Your task to perform on an android device: Add logitech g933 to the cart on bestbuy.com, then select checkout. Image 0: 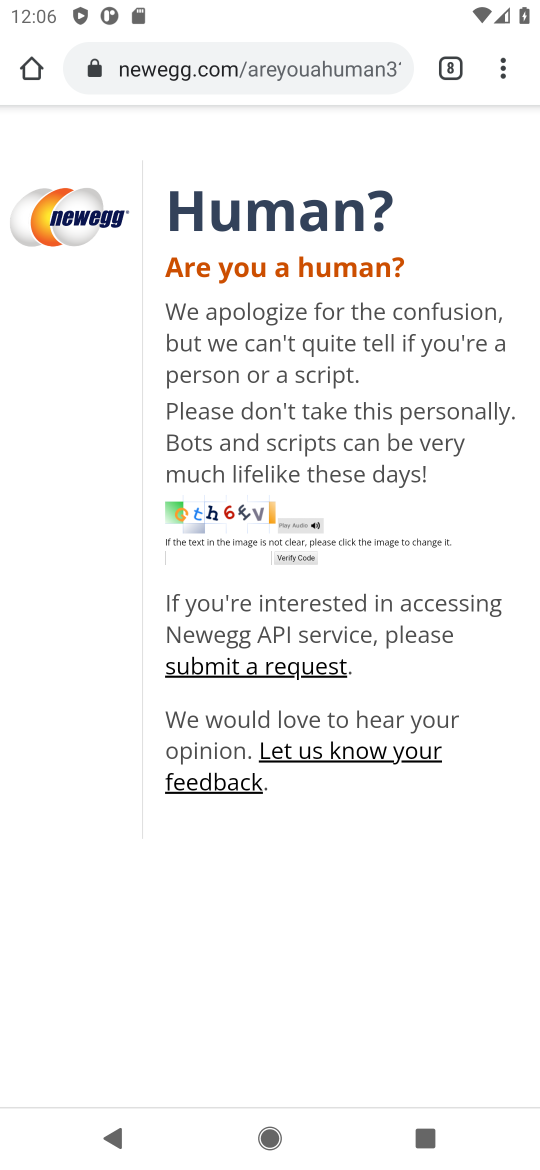
Step 0: press home button
Your task to perform on an android device: Add logitech g933 to the cart on bestbuy.com, then select checkout. Image 1: 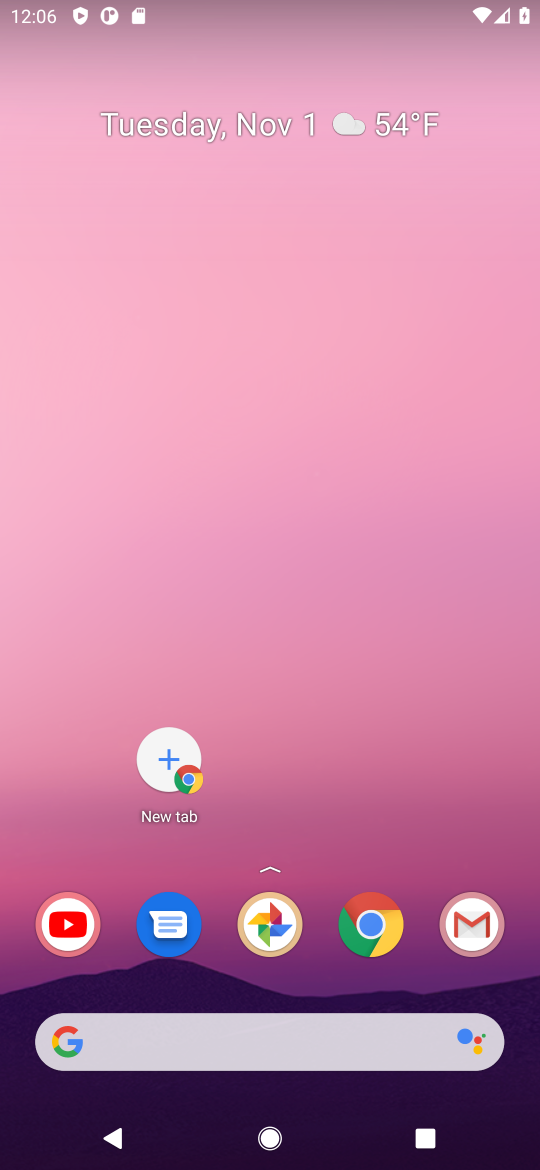
Step 1: click (361, 943)
Your task to perform on an android device: Add logitech g933 to the cart on bestbuy.com, then select checkout. Image 2: 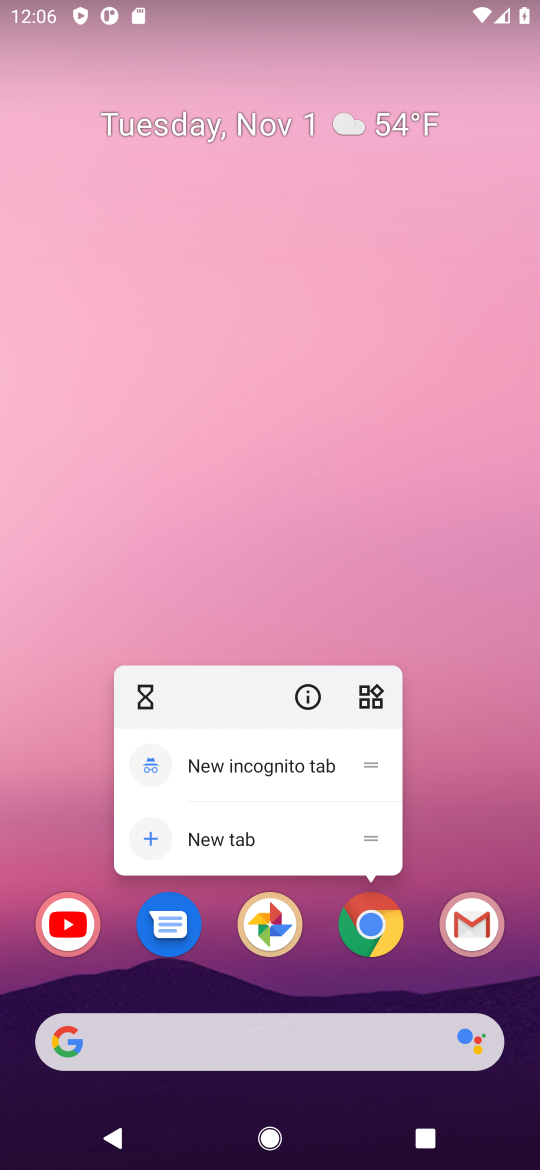
Step 2: click (385, 934)
Your task to perform on an android device: Add logitech g933 to the cart on bestbuy.com, then select checkout. Image 3: 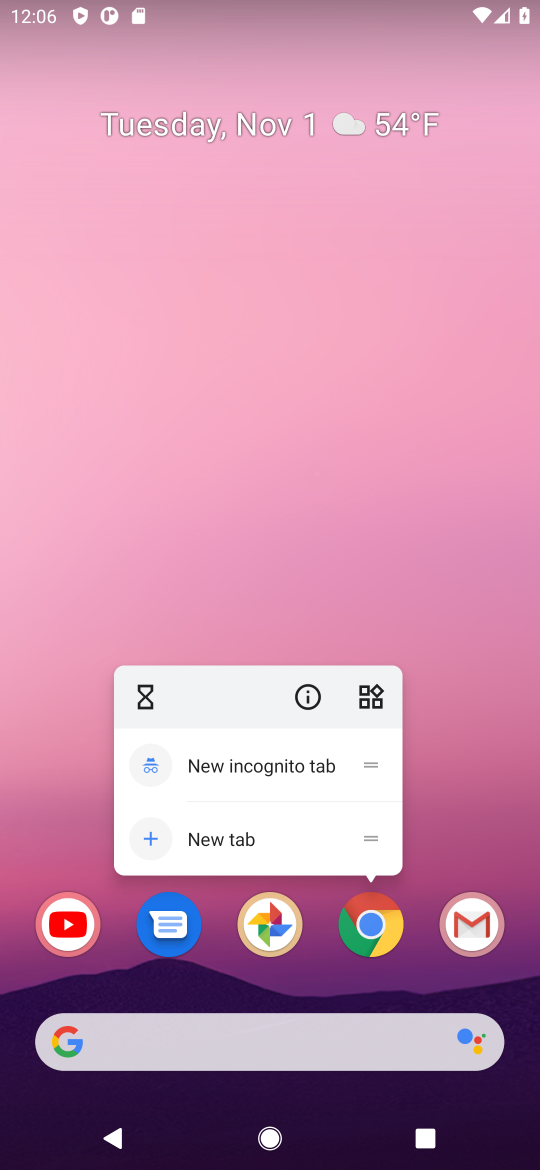
Step 3: click (387, 931)
Your task to perform on an android device: Add logitech g933 to the cart on bestbuy.com, then select checkout. Image 4: 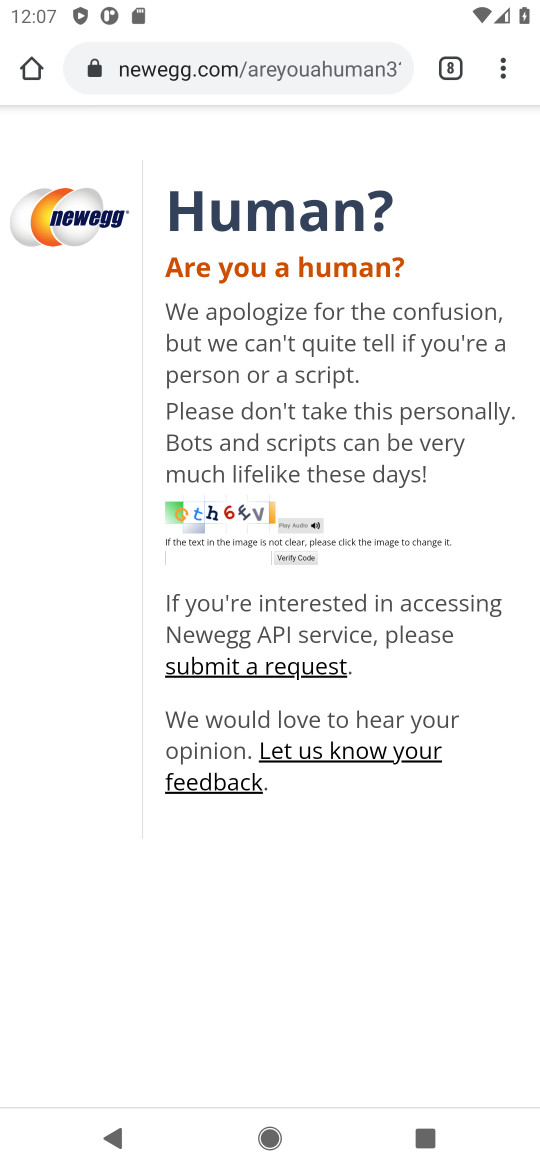
Step 4: press home button
Your task to perform on an android device: Add logitech g933 to the cart on bestbuy.com, then select checkout. Image 5: 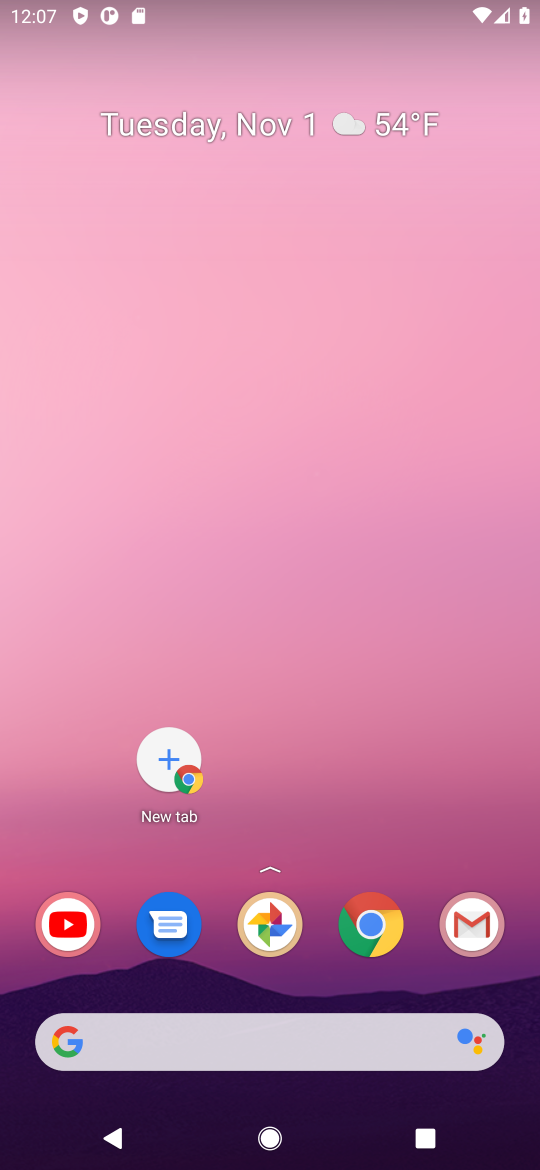
Step 5: click (353, 932)
Your task to perform on an android device: Add logitech g933 to the cart on bestbuy.com, then select checkout. Image 6: 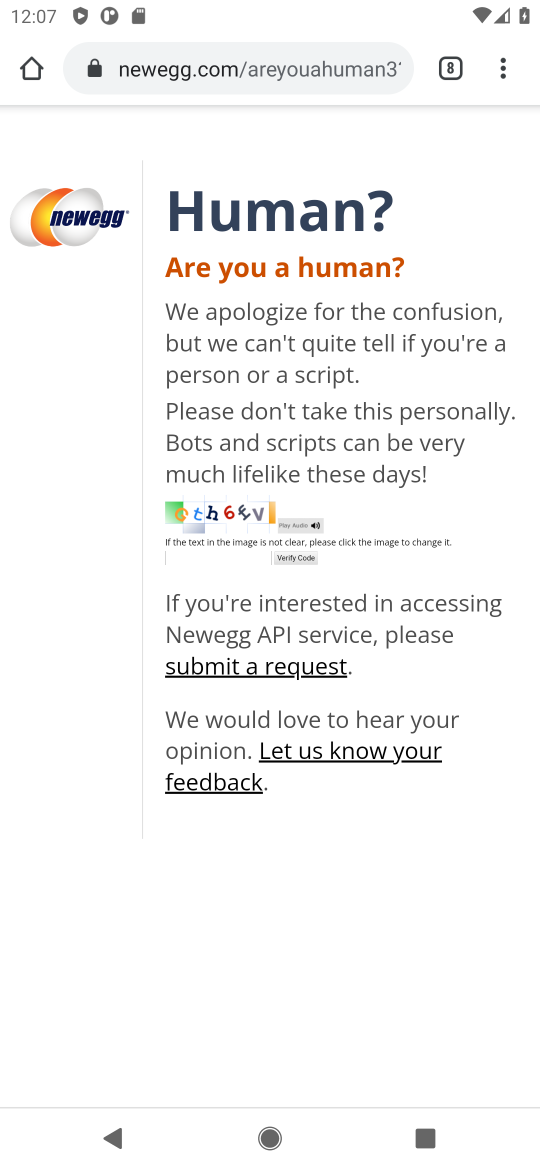
Step 6: click (167, 65)
Your task to perform on an android device: Add logitech g933 to the cart on bestbuy.com, then select checkout. Image 7: 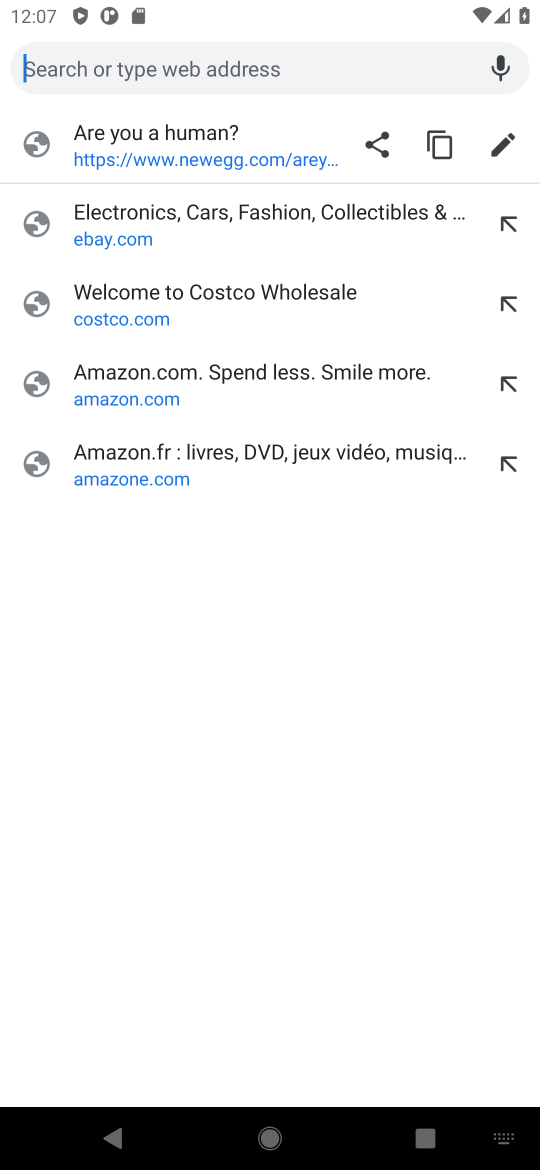
Step 7: type "bestbuy.com"
Your task to perform on an android device: Add logitech g933 to the cart on bestbuy.com, then select checkout. Image 8: 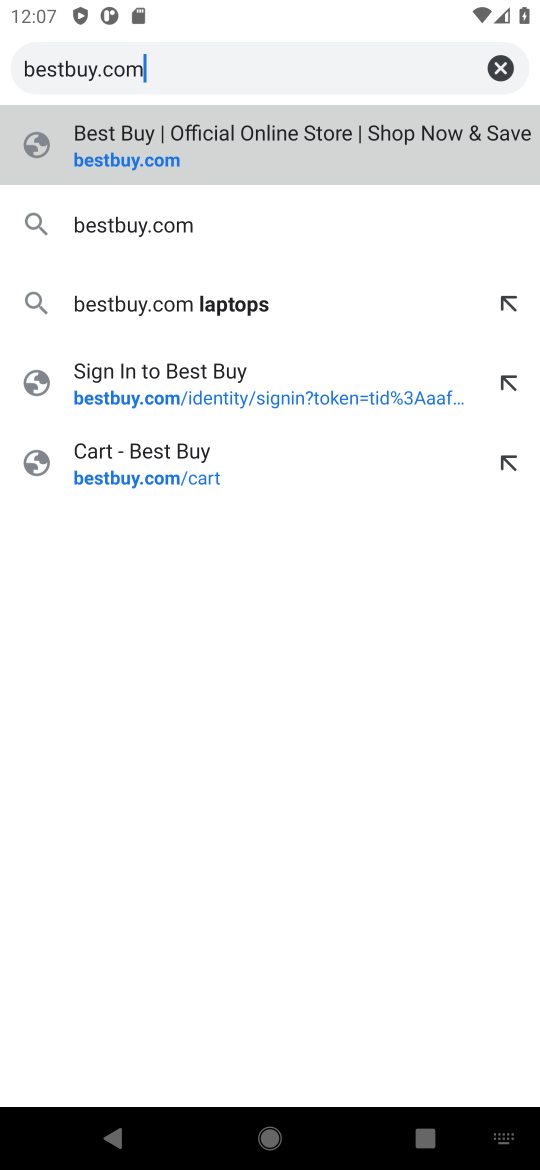
Step 8: click (169, 155)
Your task to perform on an android device: Add logitech g933 to the cart on bestbuy.com, then select checkout. Image 9: 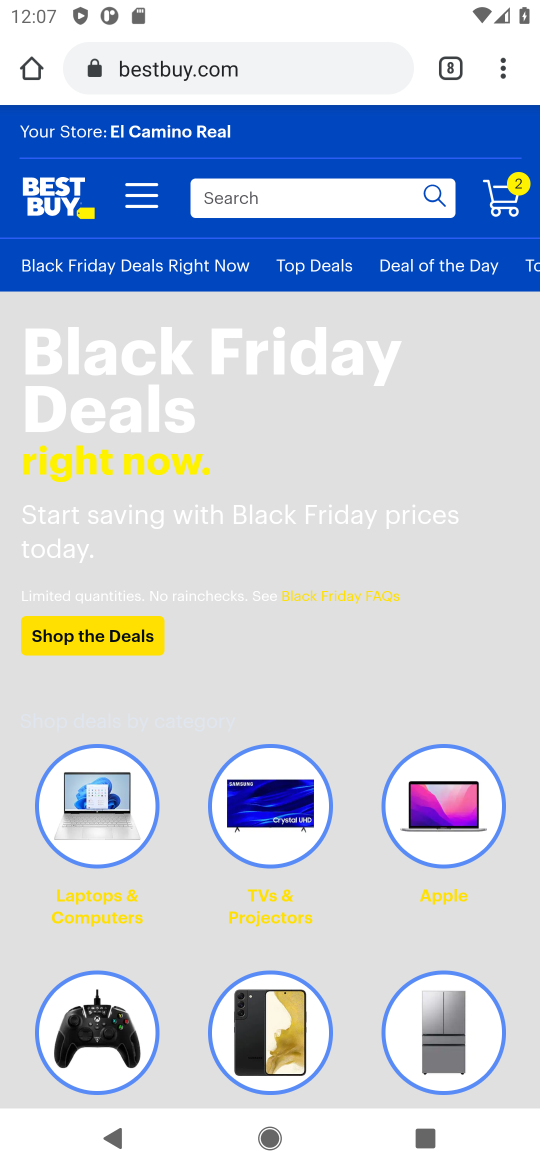
Step 9: click (311, 189)
Your task to perform on an android device: Add logitech g933 to the cart on bestbuy.com, then select checkout. Image 10: 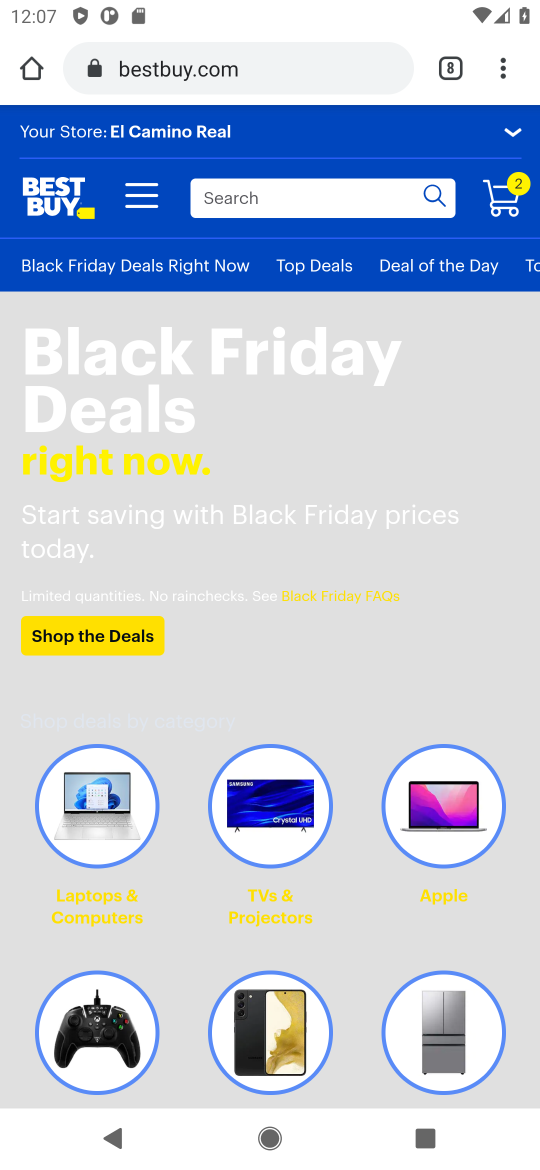
Step 10: type "logitech g 933"
Your task to perform on an android device: Add logitech g933 to the cart on bestbuy.com, then select checkout. Image 11: 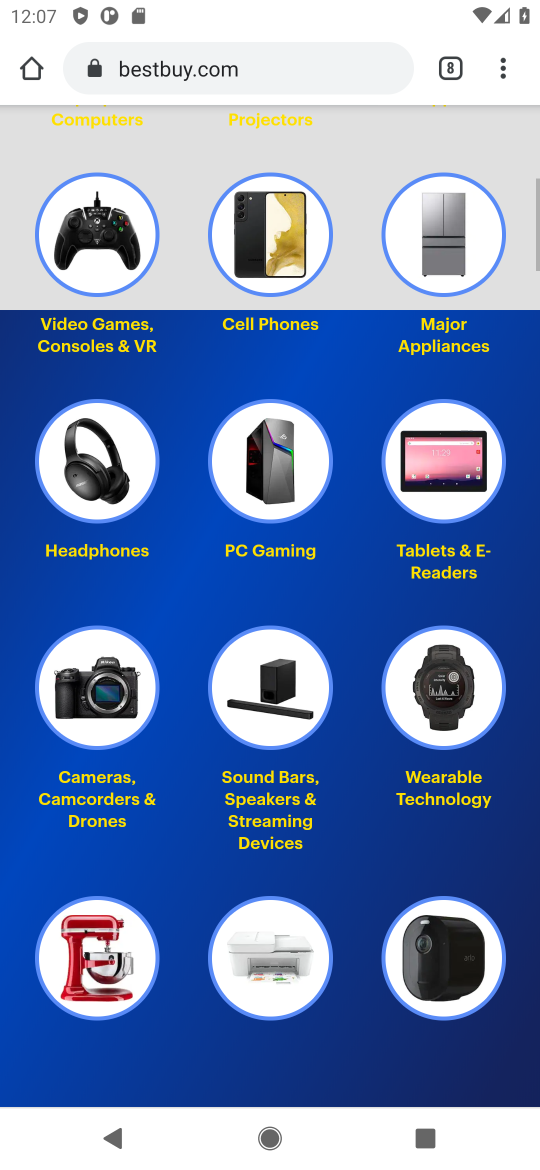
Step 11: type ""
Your task to perform on an android device: Add logitech g933 to the cart on bestbuy.com, then select checkout. Image 12: 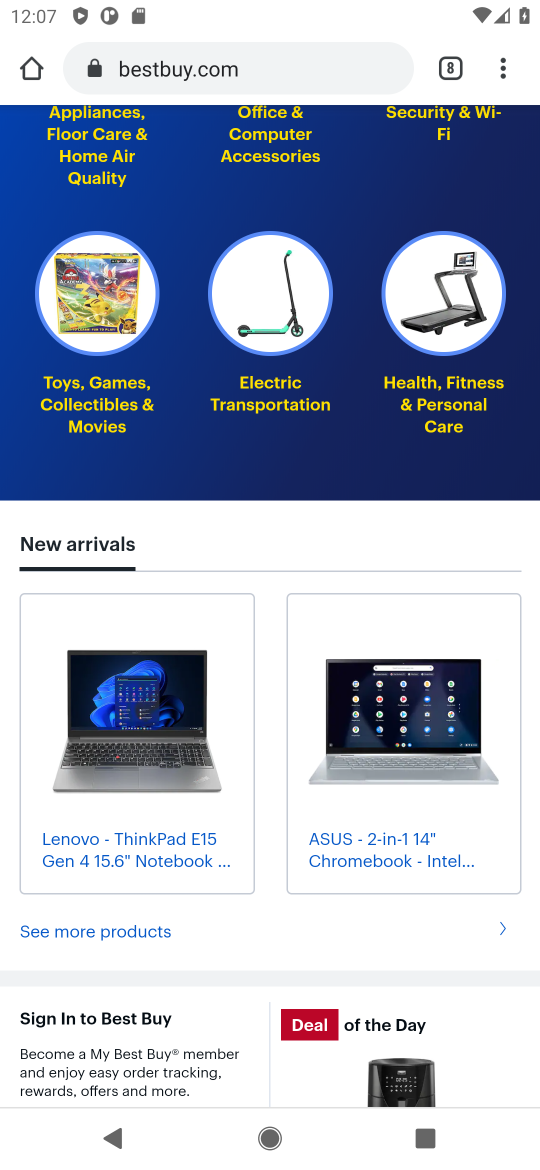
Step 12: drag from (168, 887) to (277, 319)
Your task to perform on an android device: Add logitech g933 to the cart on bestbuy.com, then select checkout. Image 13: 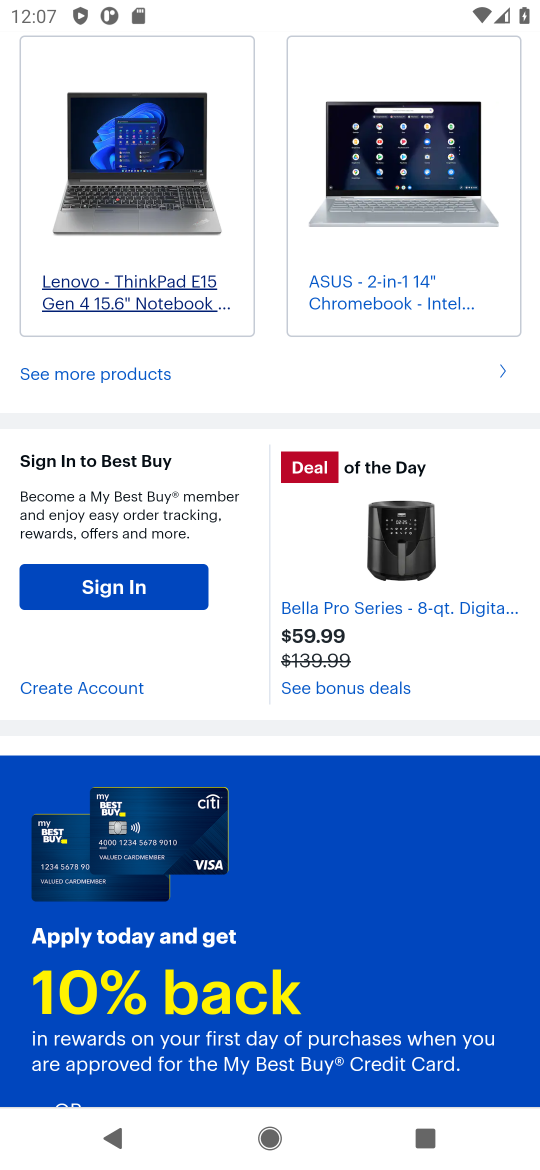
Step 13: drag from (156, 897) to (214, 237)
Your task to perform on an android device: Add logitech g933 to the cart on bestbuy.com, then select checkout. Image 14: 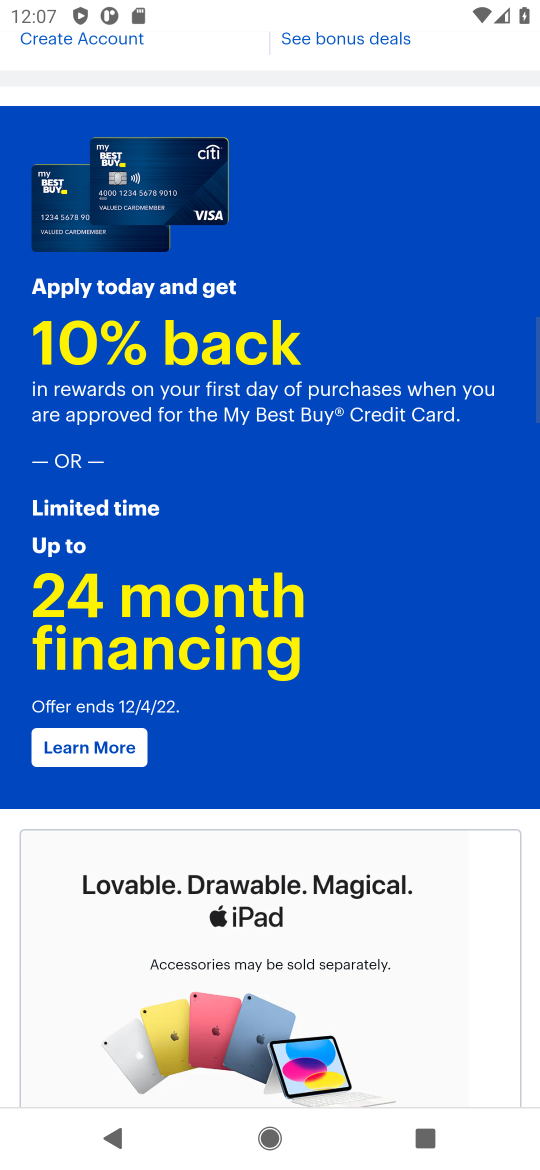
Step 14: drag from (240, 620) to (304, 105)
Your task to perform on an android device: Add logitech g933 to the cart on bestbuy.com, then select checkout. Image 15: 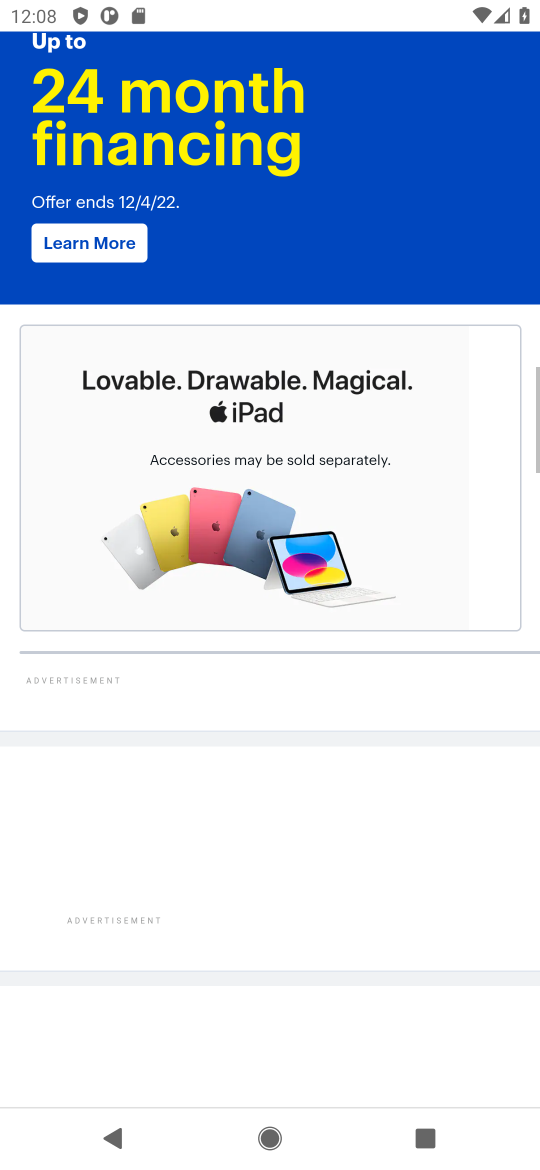
Step 15: drag from (328, 123) to (326, 816)
Your task to perform on an android device: Add logitech g933 to the cart on bestbuy.com, then select checkout. Image 16: 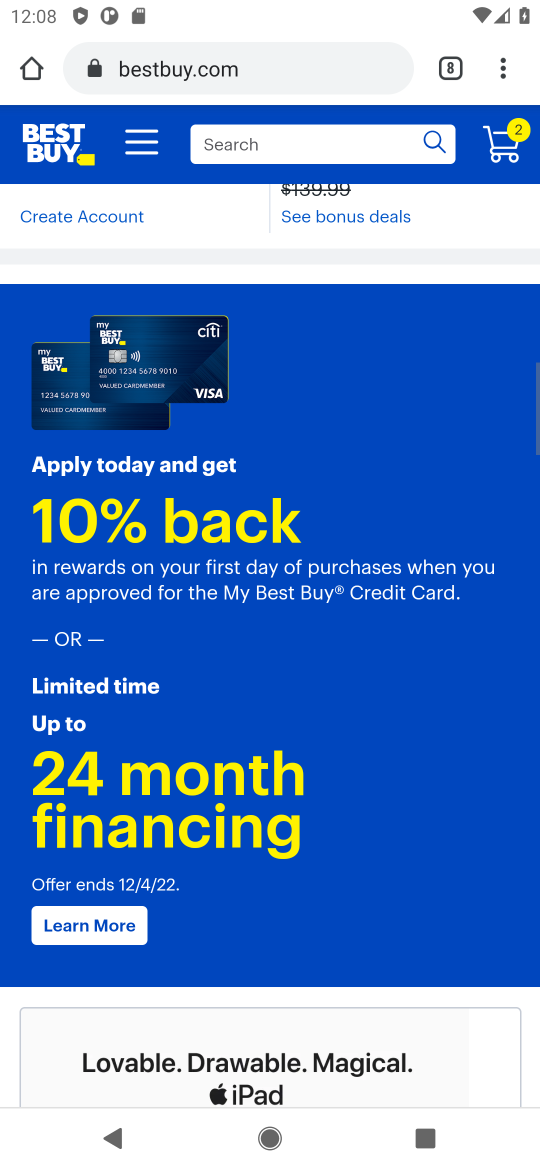
Step 16: drag from (294, 346) to (270, 921)
Your task to perform on an android device: Add logitech g933 to the cart on bestbuy.com, then select checkout. Image 17: 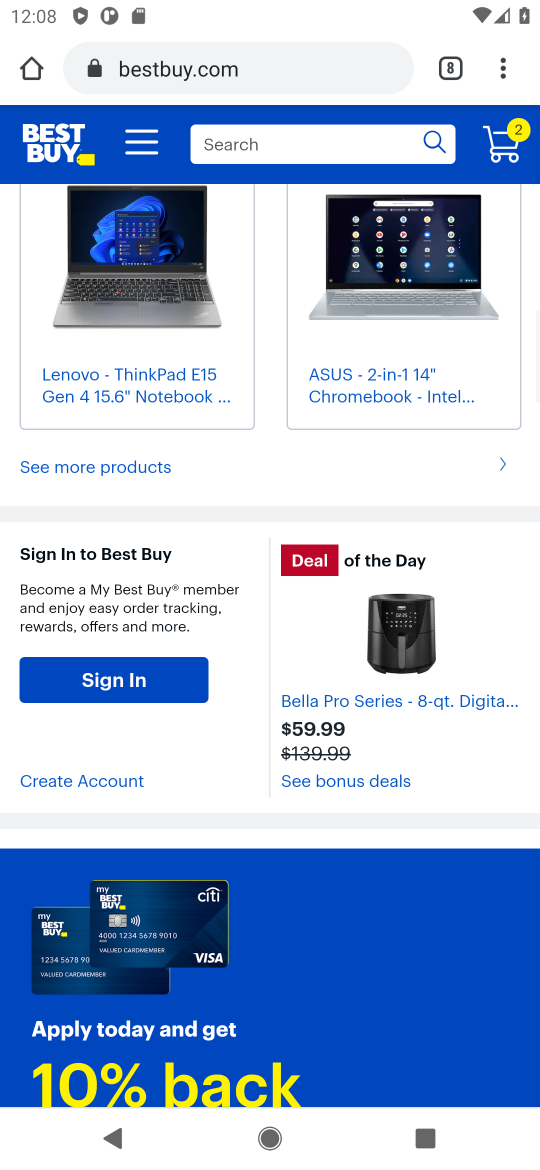
Step 17: drag from (183, 329) to (159, 753)
Your task to perform on an android device: Add logitech g933 to the cart on bestbuy.com, then select checkout. Image 18: 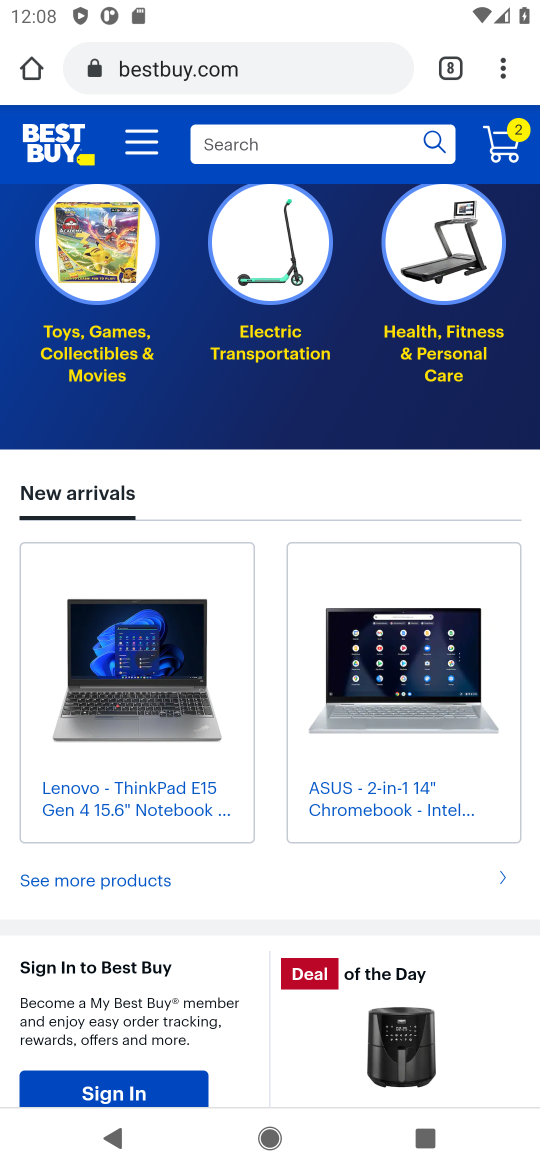
Step 18: click (197, 719)
Your task to perform on an android device: Add logitech g933 to the cart on bestbuy.com, then select checkout. Image 19: 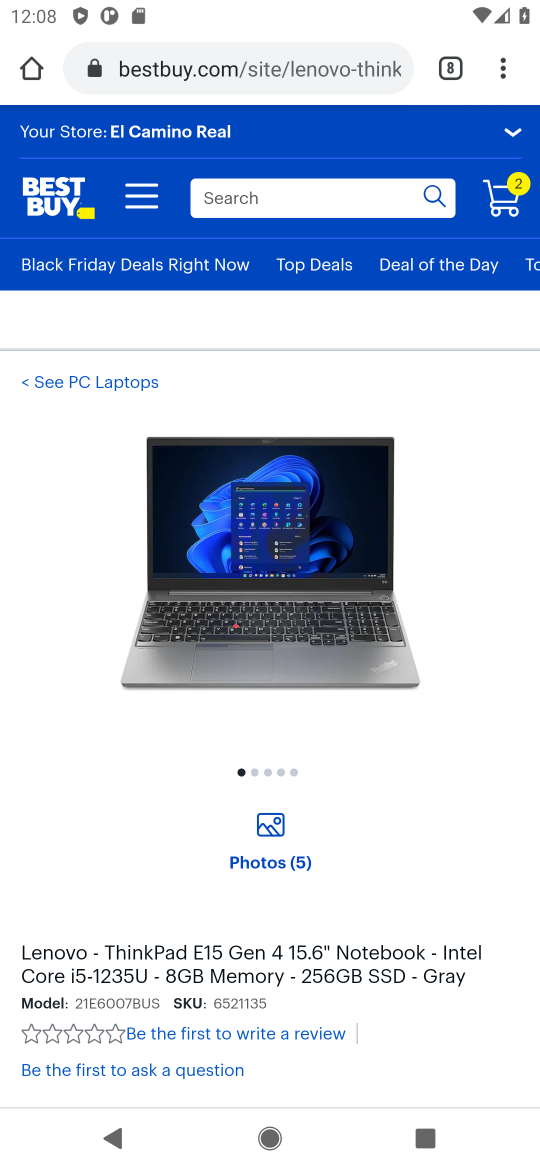
Step 19: drag from (410, 747) to (409, 298)
Your task to perform on an android device: Add logitech g933 to the cart on bestbuy.com, then select checkout. Image 20: 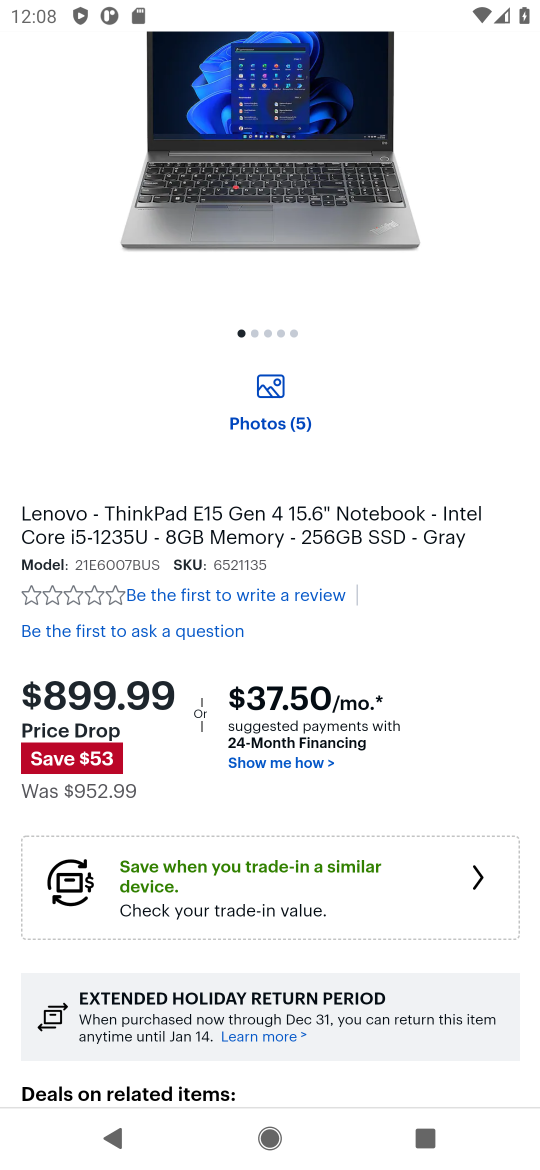
Step 20: drag from (374, 344) to (394, 727)
Your task to perform on an android device: Add logitech g933 to the cart on bestbuy.com, then select checkout. Image 21: 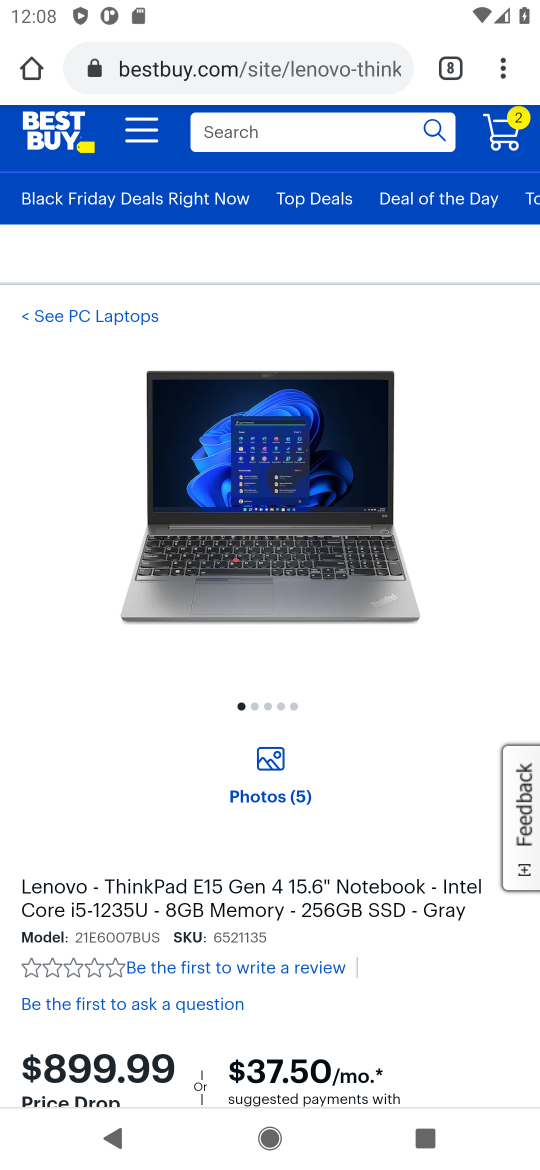
Step 21: drag from (335, 767) to (387, 333)
Your task to perform on an android device: Add logitech g933 to the cart on bestbuy.com, then select checkout. Image 22: 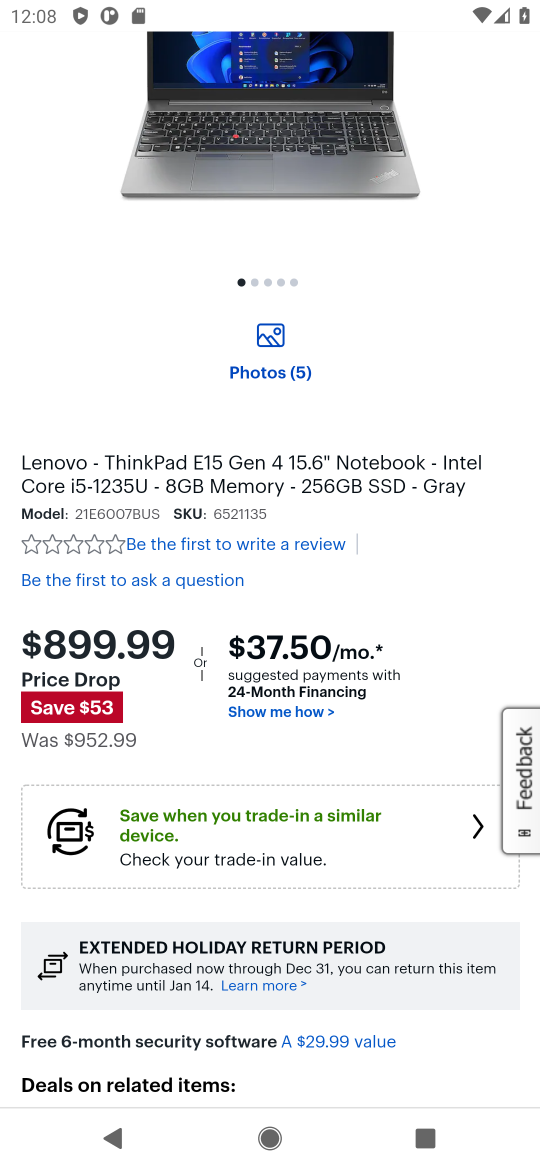
Step 22: drag from (460, 667) to (423, 752)
Your task to perform on an android device: Add logitech g933 to the cart on bestbuy.com, then select checkout. Image 23: 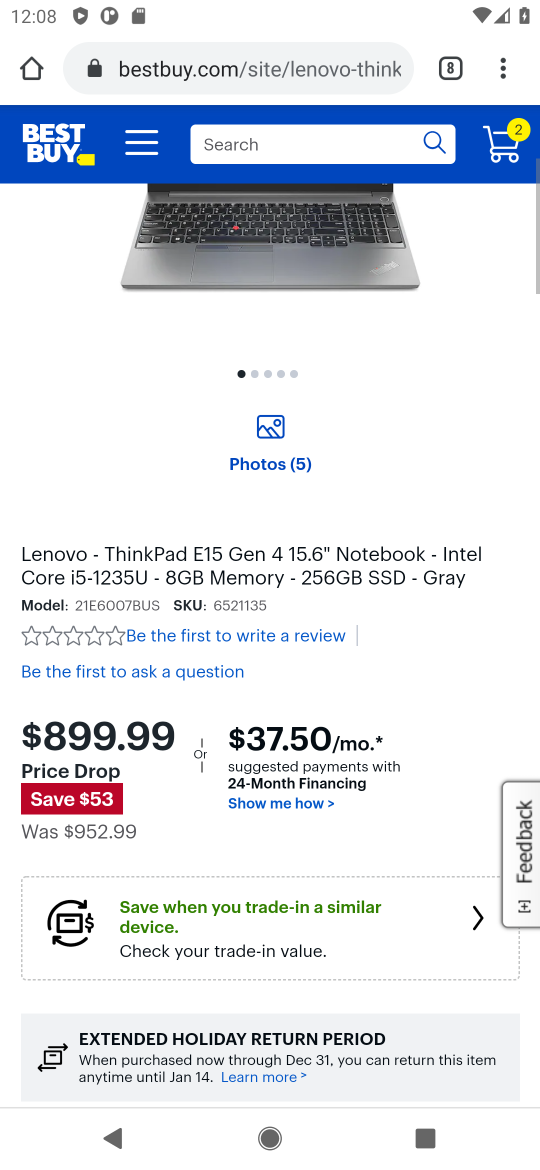
Step 23: drag from (357, 331) to (246, 867)
Your task to perform on an android device: Add logitech g933 to the cart on bestbuy.com, then select checkout. Image 24: 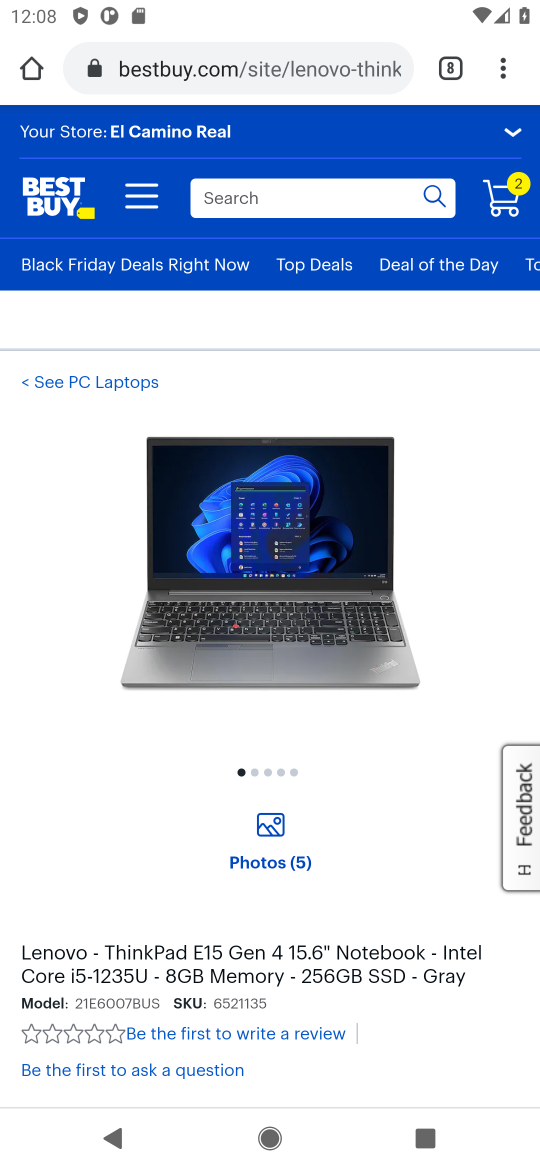
Step 24: click (255, 195)
Your task to perform on an android device: Add logitech g933 to the cart on bestbuy.com, then select checkout. Image 25: 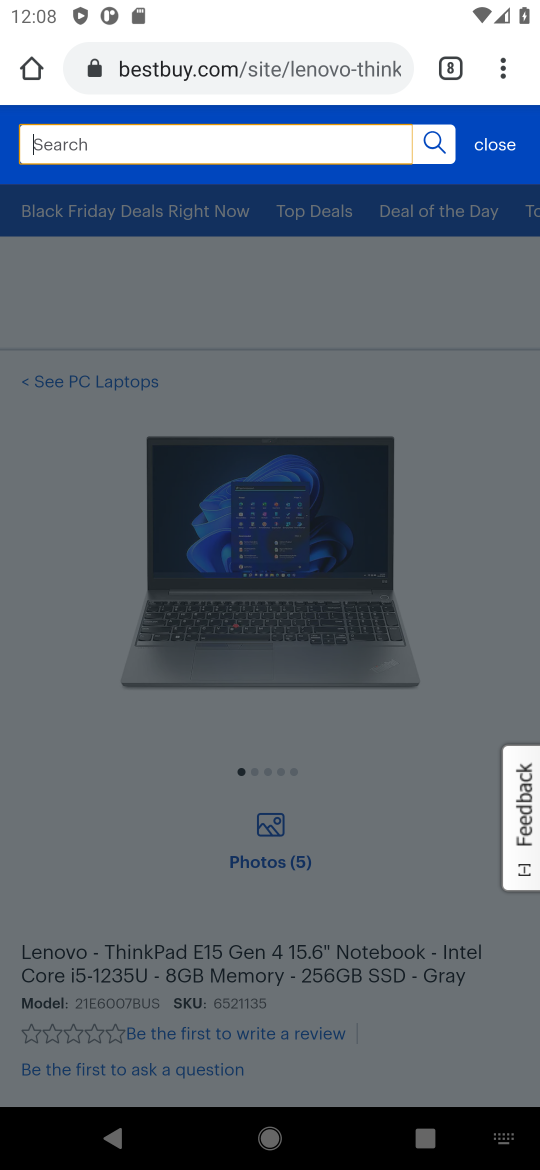
Step 25: type "logitech g933"
Your task to perform on an android device: Add logitech g933 to the cart on bestbuy.com, then select checkout. Image 26: 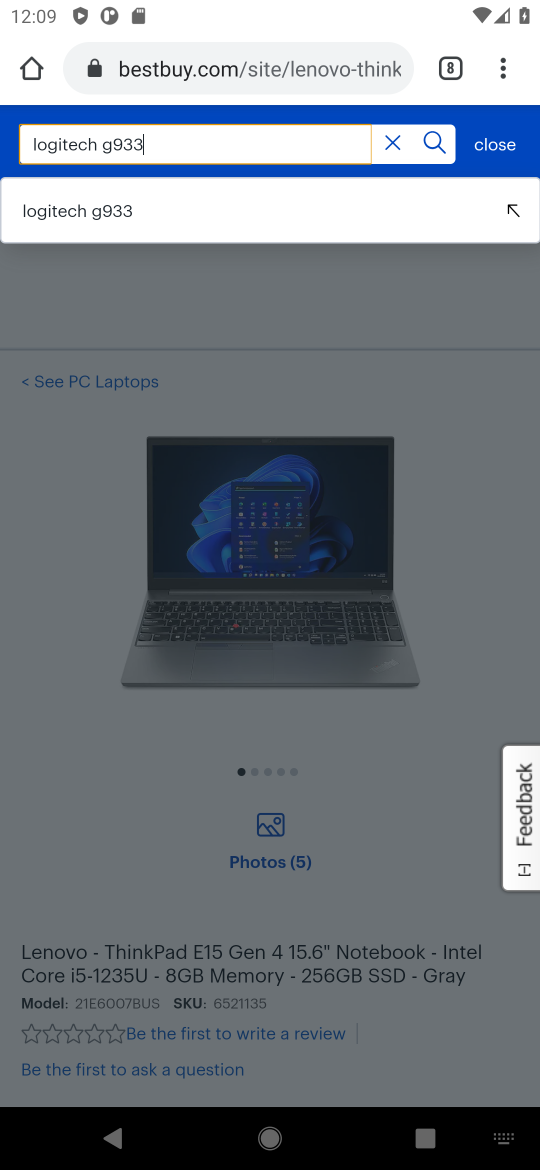
Step 26: click (128, 214)
Your task to perform on an android device: Add logitech g933 to the cart on bestbuy.com, then select checkout. Image 27: 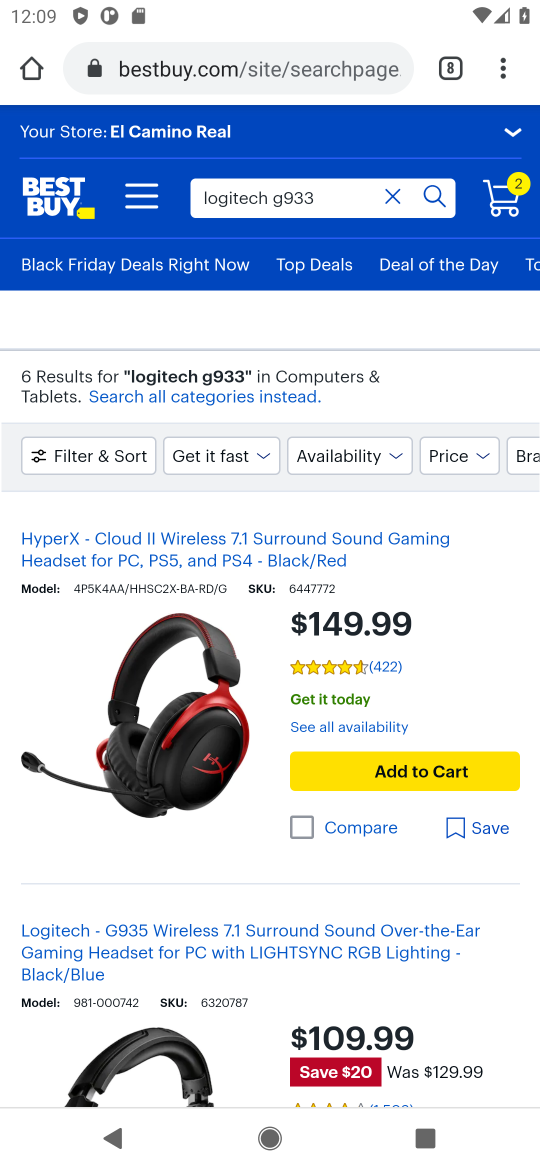
Step 27: drag from (156, 805) to (245, 319)
Your task to perform on an android device: Add logitech g933 to the cart on bestbuy.com, then select checkout. Image 28: 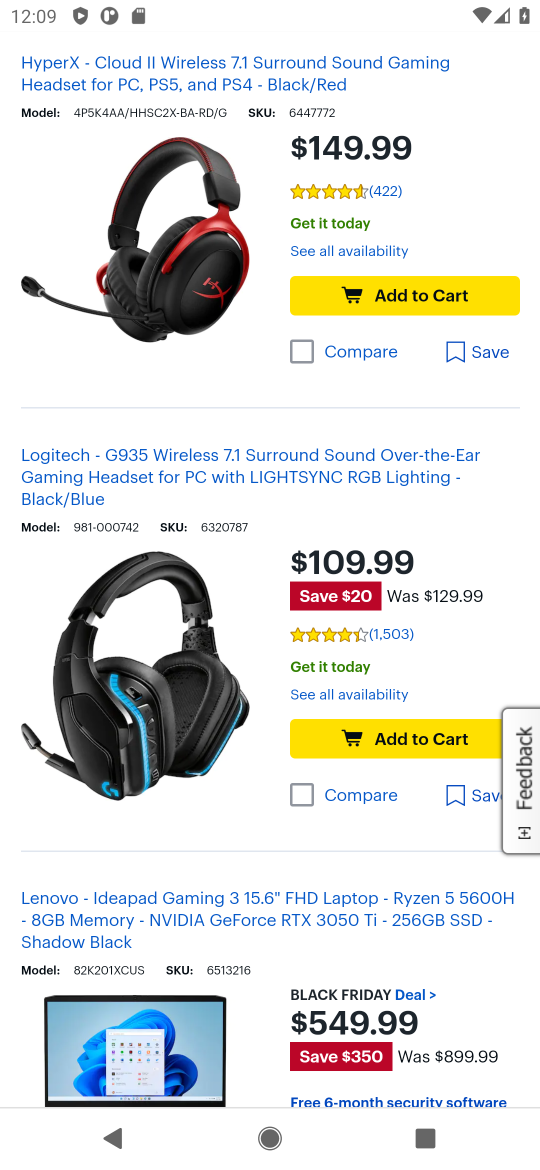
Step 28: click (149, 687)
Your task to perform on an android device: Add logitech g933 to the cart on bestbuy.com, then select checkout. Image 29: 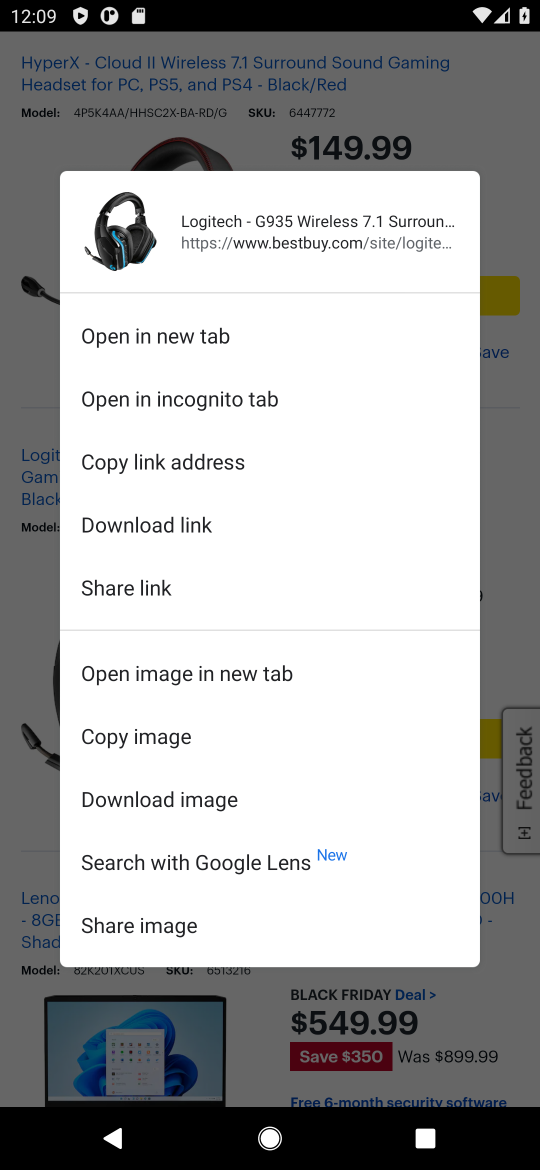
Step 29: press back button
Your task to perform on an android device: Add logitech g933 to the cart on bestbuy.com, then select checkout. Image 30: 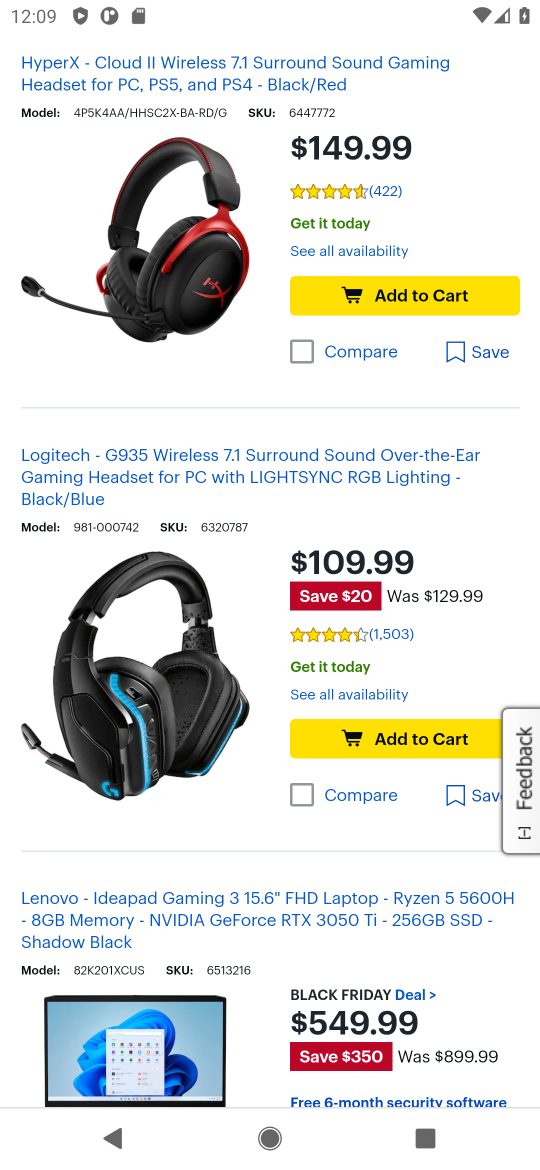
Step 30: drag from (422, 362) to (376, 716)
Your task to perform on an android device: Add logitech g933 to the cart on bestbuy.com, then select checkout. Image 31: 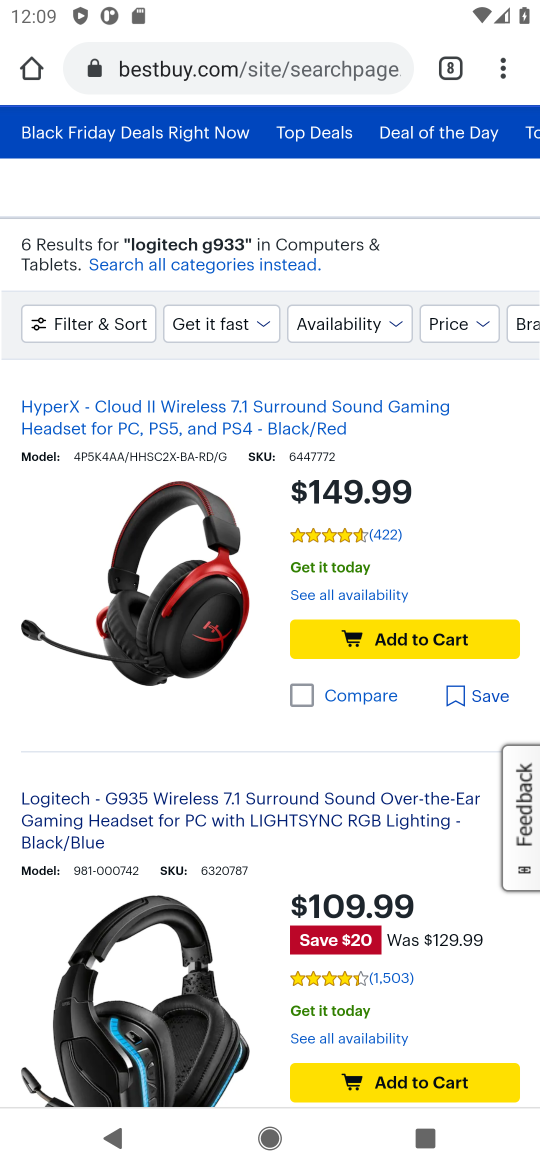
Step 31: drag from (97, 778) to (158, 393)
Your task to perform on an android device: Add logitech g933 to the cart on bestbuy.com, then select checkout. Image 32: 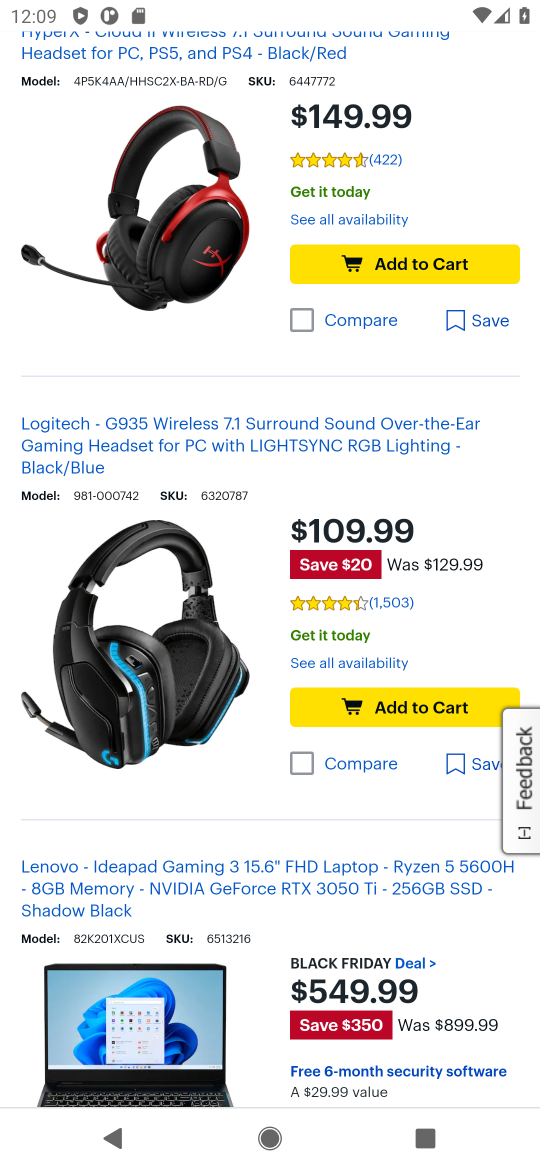
Step 32: click (142, 460)
Your task to perform on an android device: Add logitech g933 to the cart on bestbuy.com, then select checkout. Image 33: 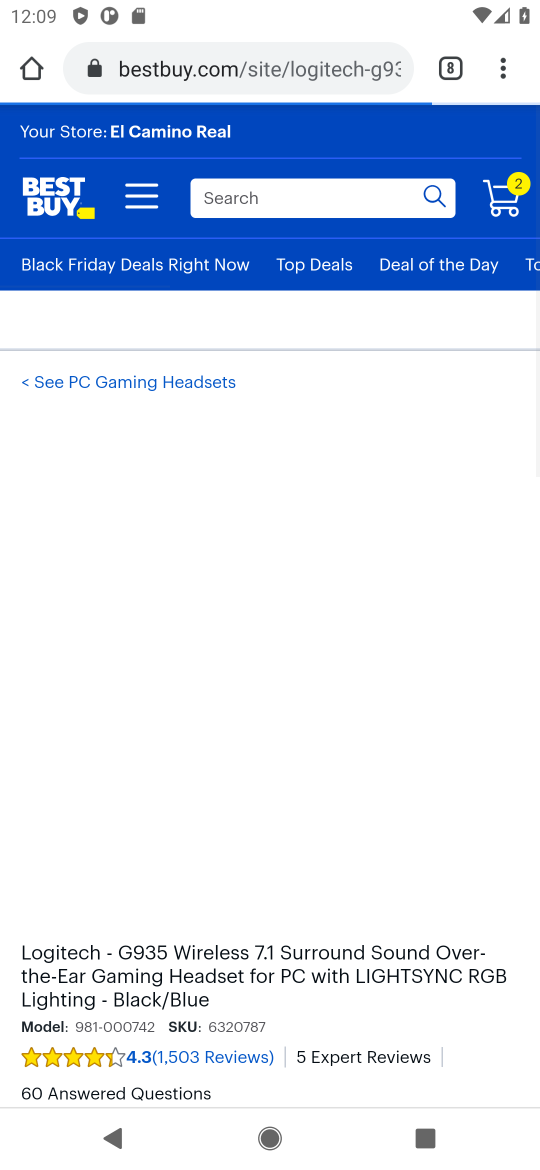
Step 33: click (116, 672)
Your task to perform on an android device: Add logitech g933 to the cart on bestbuy.com, then select checkout. Image 34: 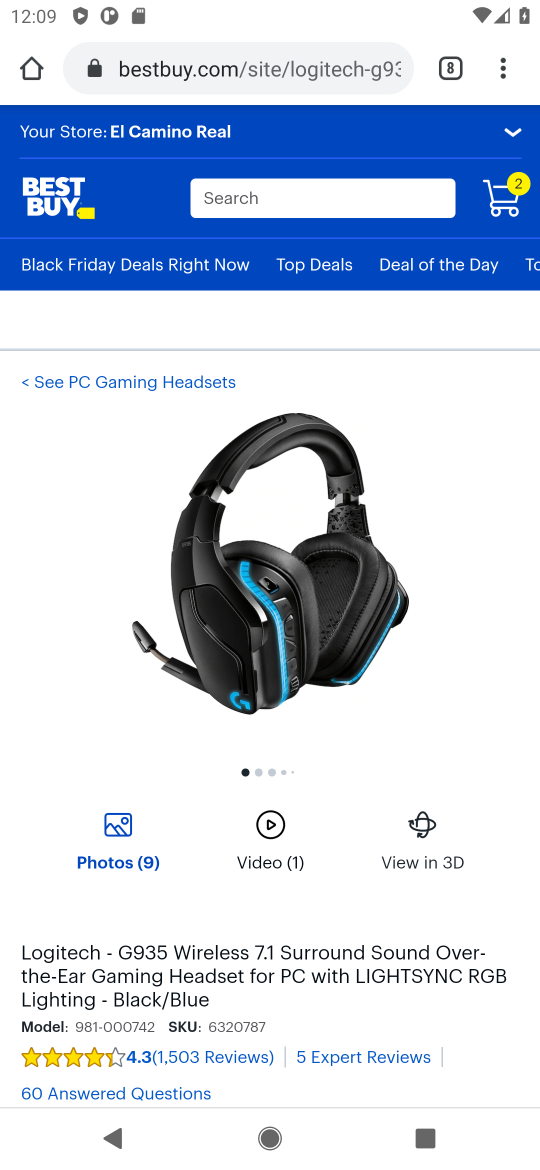
Step 34: drag from (498, 773) to (473, 417)
Your task to perform on an android device: Add logitech g933 to the cart on bestbuy.com, then select checkout. Image 35: 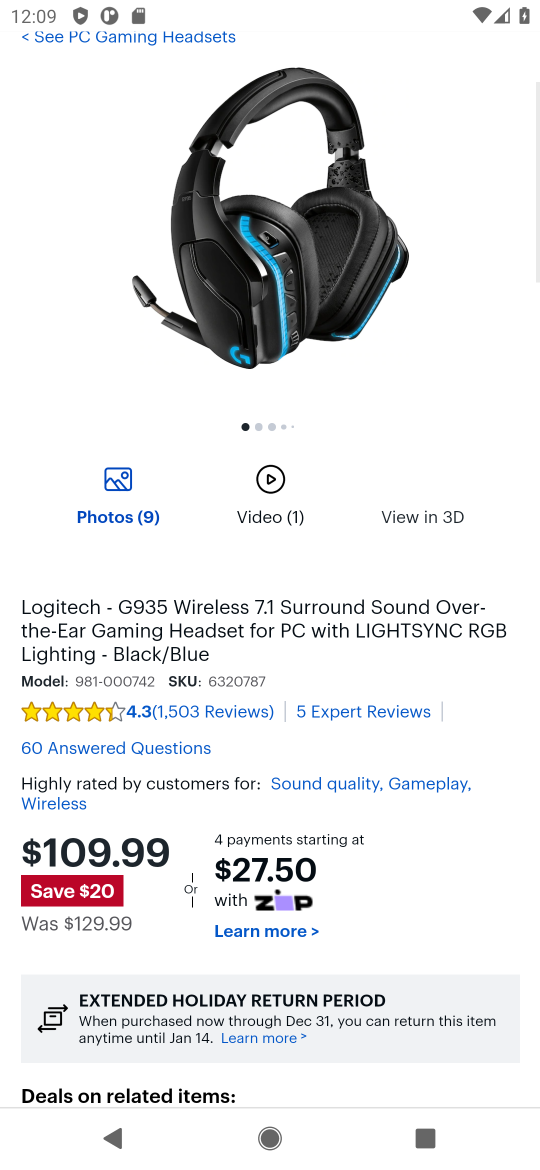
Step 35: drag from (373, 873) to (422, 575)
Your task to perform on an android device: Add logitech g933 to the cart on bestbuy.com, then select checkout. Image 36: 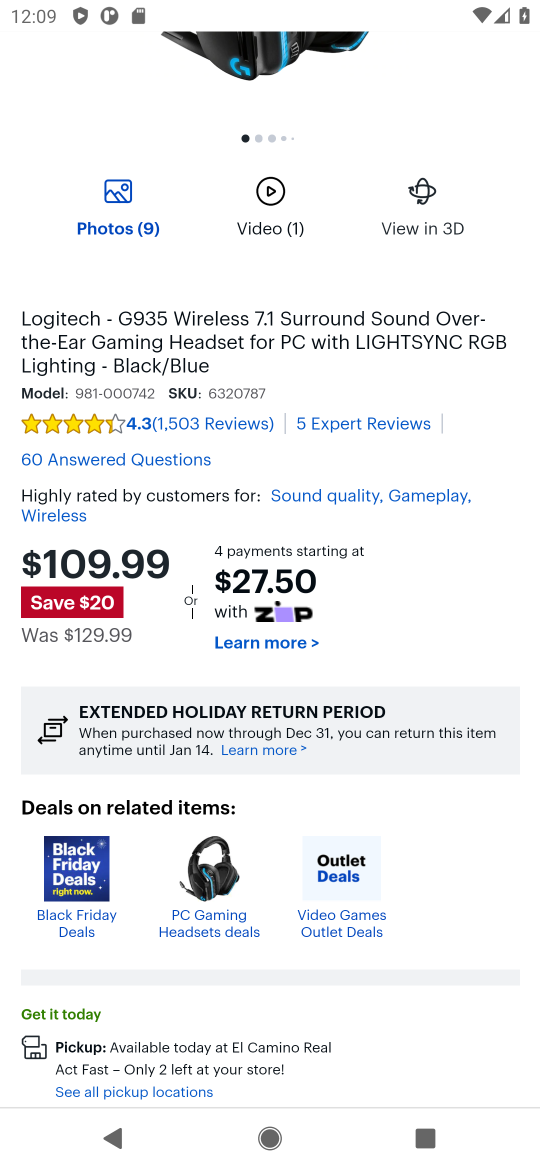
Step 36: drag from (393, 768) to (398, 384)
Your task to perform on an android device: Add logitech g933 to the cart on bestbuy.com, then select checkout. Image 37: 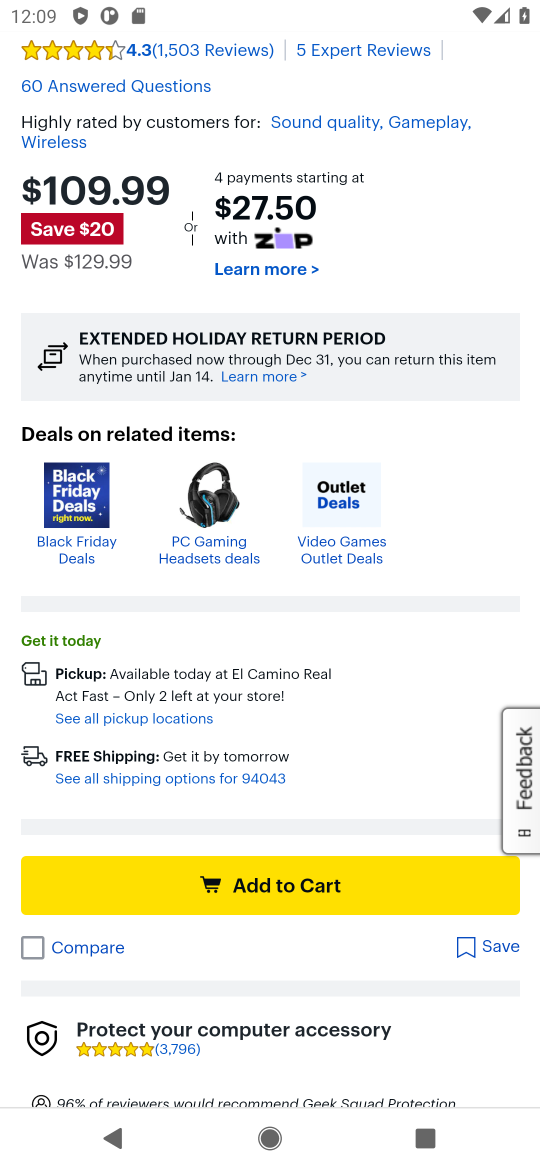
Step 37: click (272, 873)
Your task to perform on an android device: Add logitech g933 to the cart on bestbuy.com, then select checkout. Image 38: 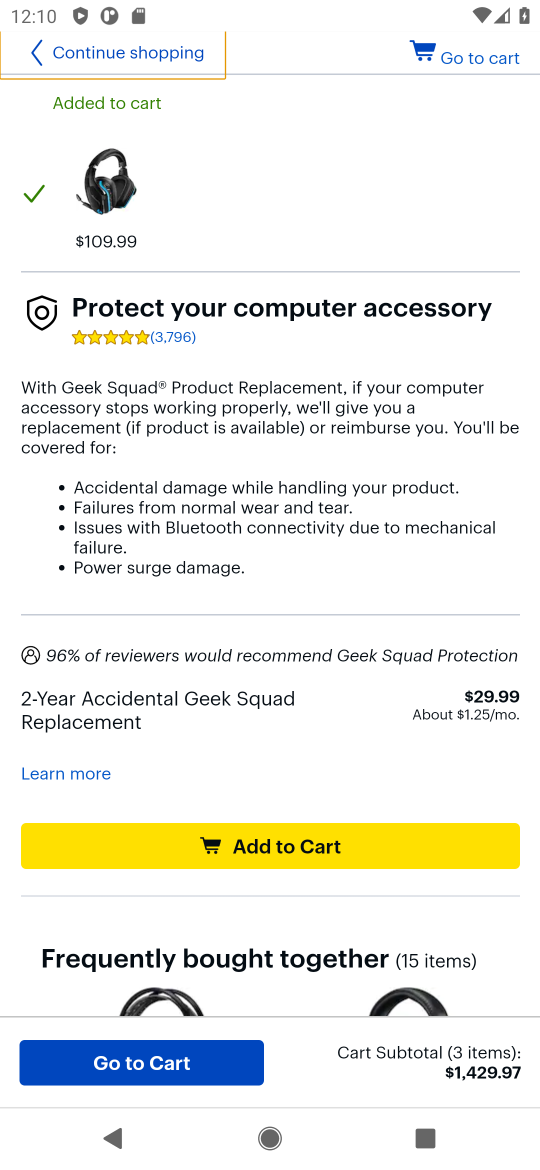
Step 38: drag from (243, 907) to (359, 450)
Your task to perform on an android device: Add logitech g933 to the cart on bestbuy.com, then select checkout. Image 39: 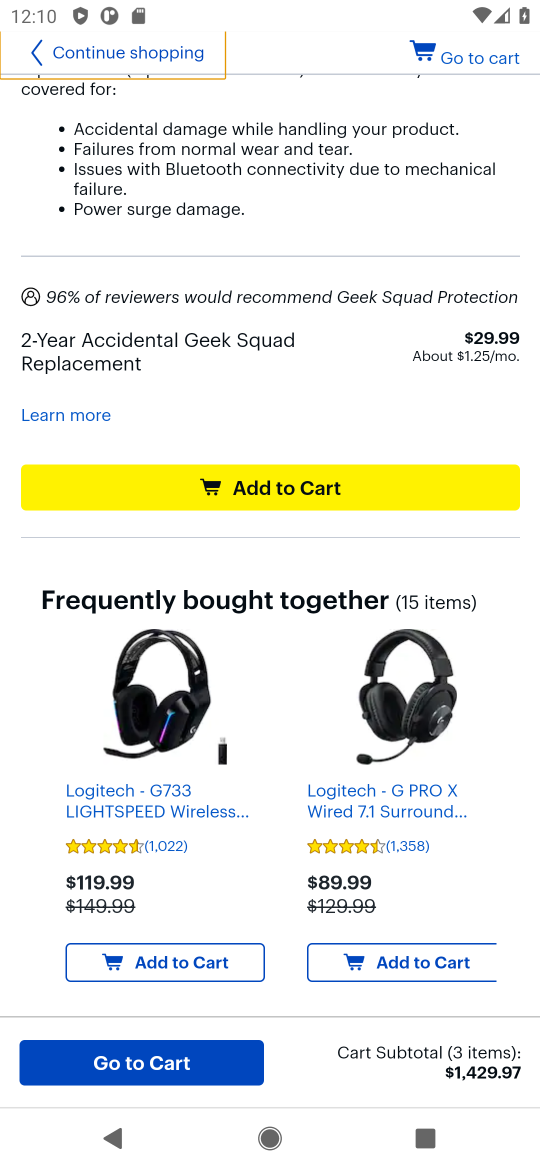
Step 39: click (302, 478)
Your task to perform on an android device: Add logitech g933 to the cart on bestbuy.com, then select checkout. Image 40: 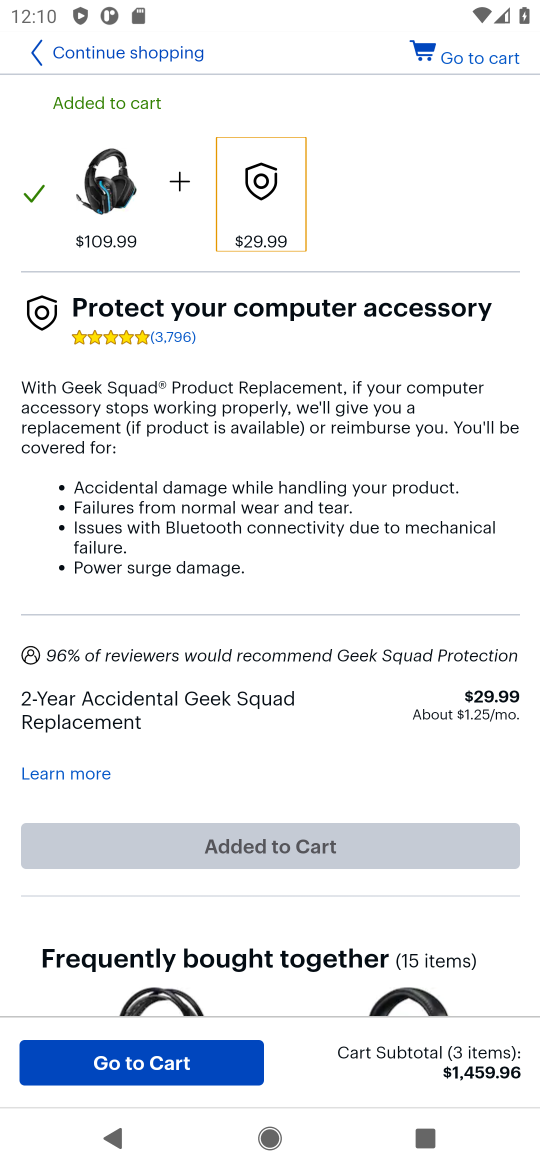
Step 40: drag from (352, 484) to (336, 803)
Your task to perform on an android device: Add logitech g933 to the cart on bestbuy.com, then select checkout. Image 41: 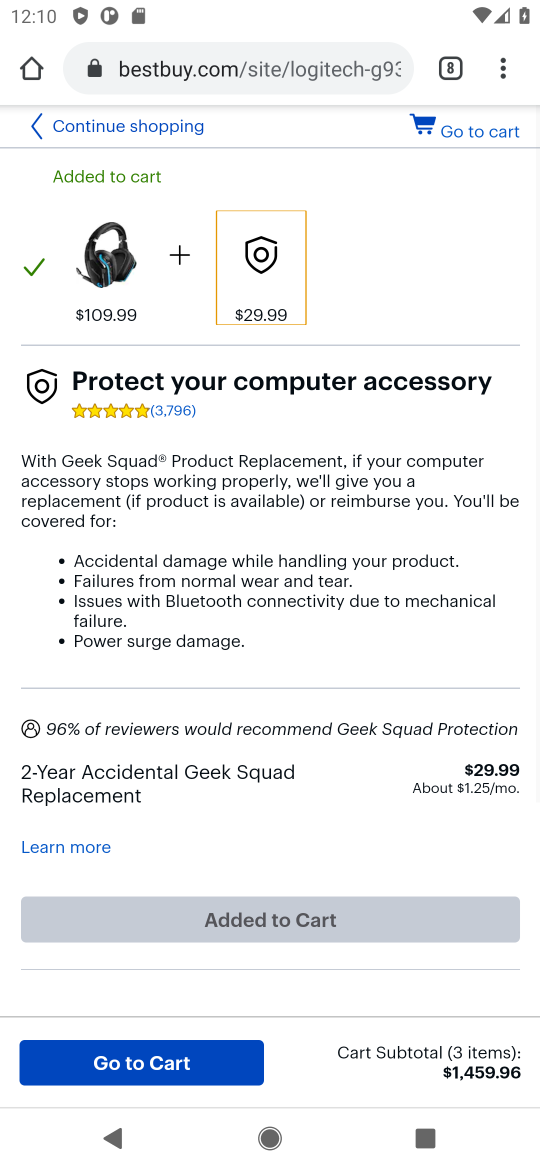
Step 41: click (464, 137)
Your task to perform on an android device: Add logitech g933 to the cart on bestbuy.com, then select checkout. Image 42: 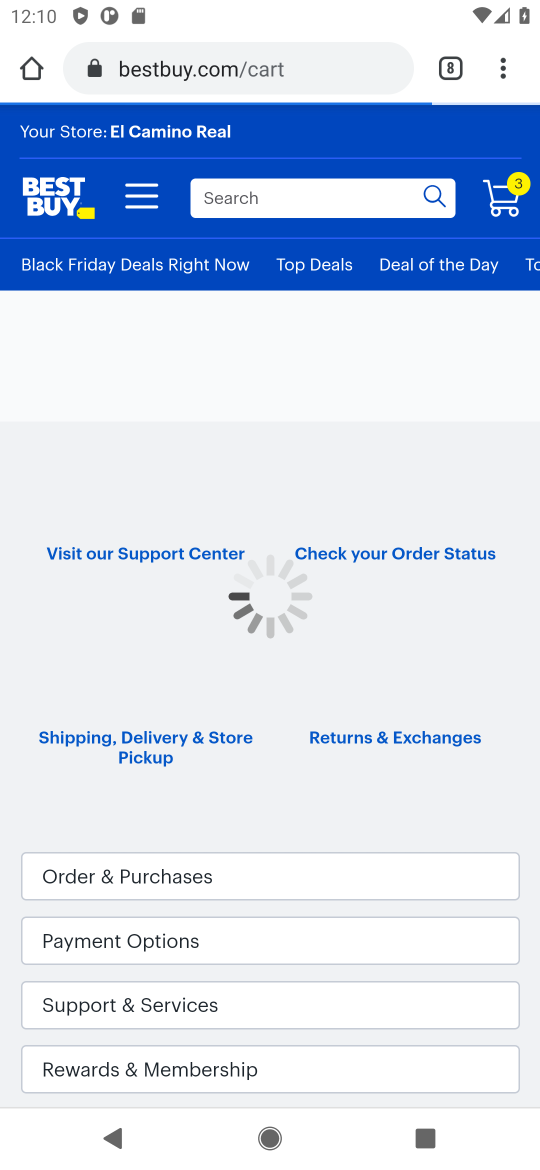
Step 42: click (519, 205)
Your task to perform on an android device: Add logitech g933 to the cart on bestbuy.com, then select checkout. Image 43: 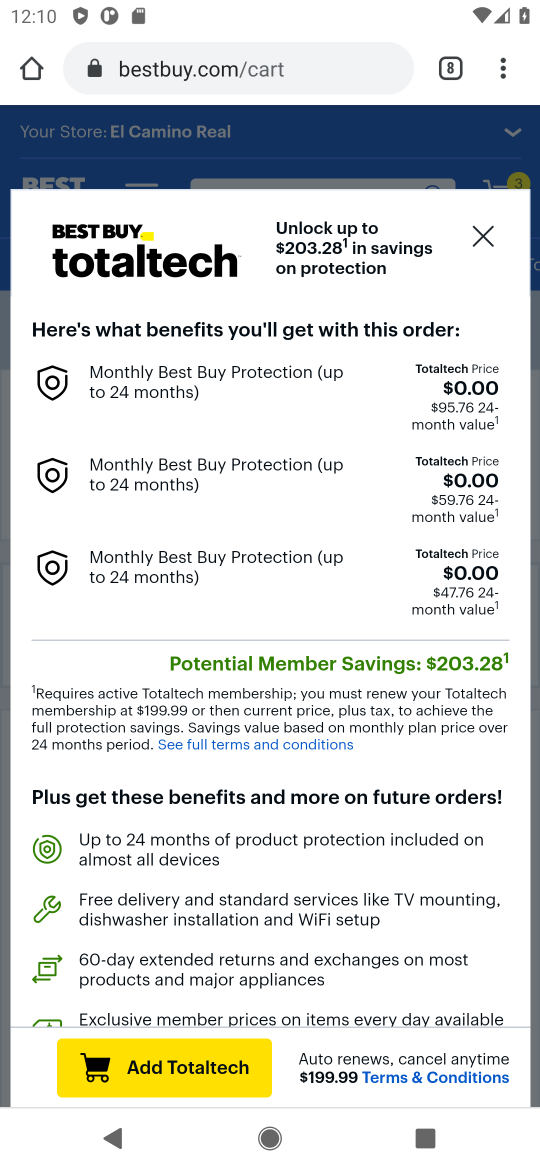
Step 43: click (490, 235)
Your task to perform on an android device: Add logitech g933 to the cart on bestbuy.com, then select checkout. Image 44: 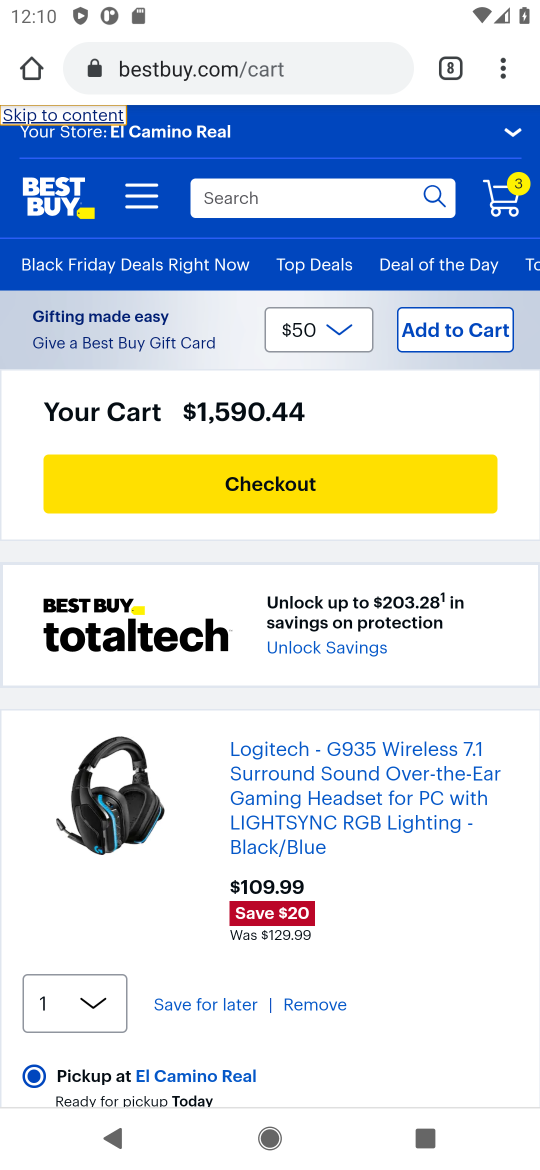
Step 44: drag from (178, 753) to (218, 230)
Your task to perform on an android device: Add logitech g933 to the cart on bestbuy.com, then select checkout. Image 45: 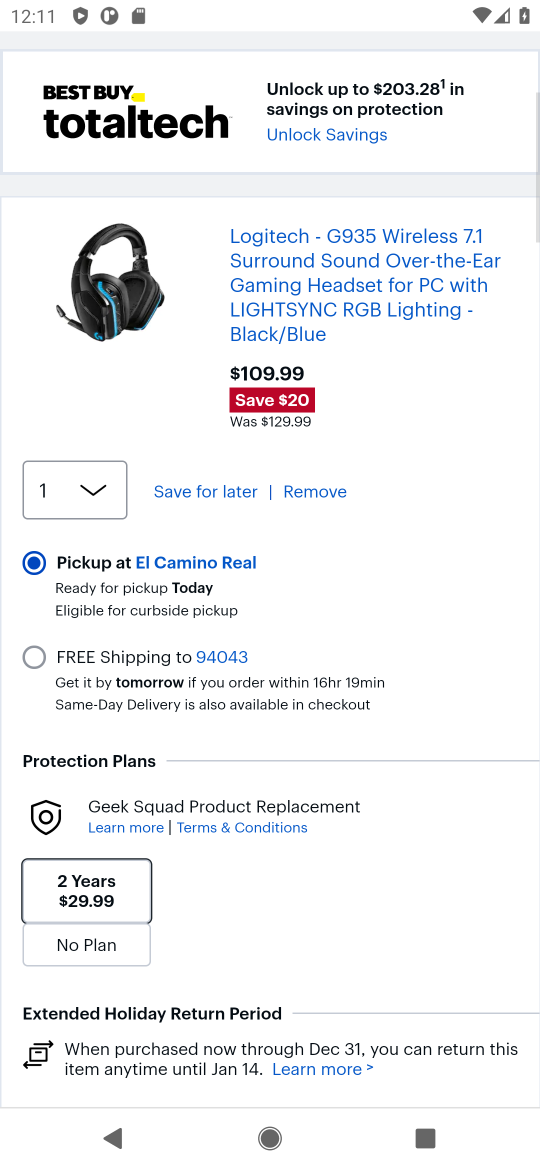
Step 45: drag from (357, 820) to (493, 212)
Your task to perform on an android device: Add logitech g933 to the cart on bestbuy.com, then select checkout. Image 46: 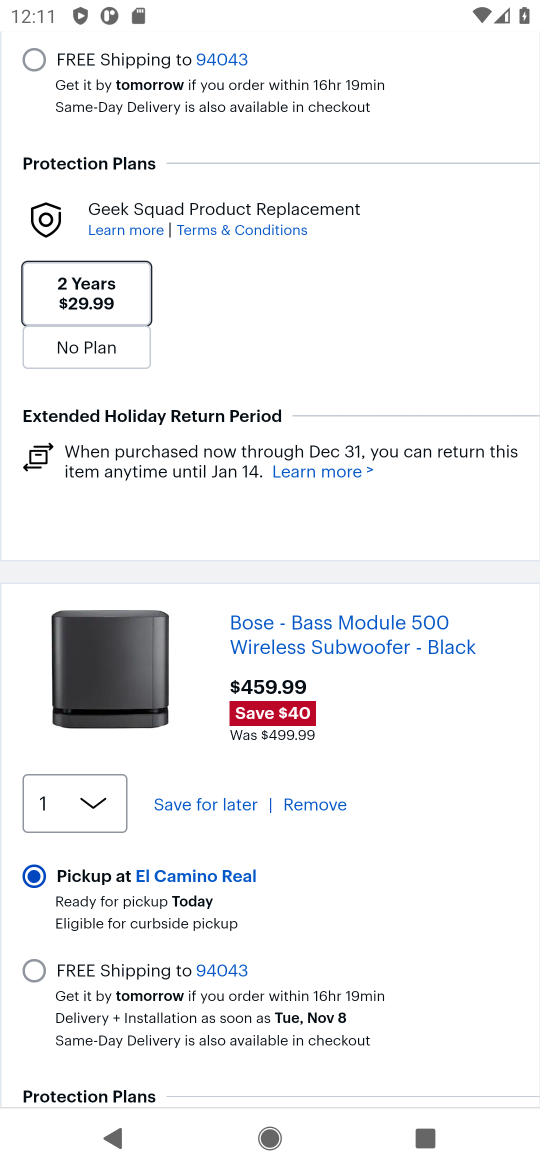
Step 46: drag from (351, 834) to (376, 232)
Your task to perform on an android device: Add logitech g933 to the cart on bestbuy.com, then select checkout. Image 47: 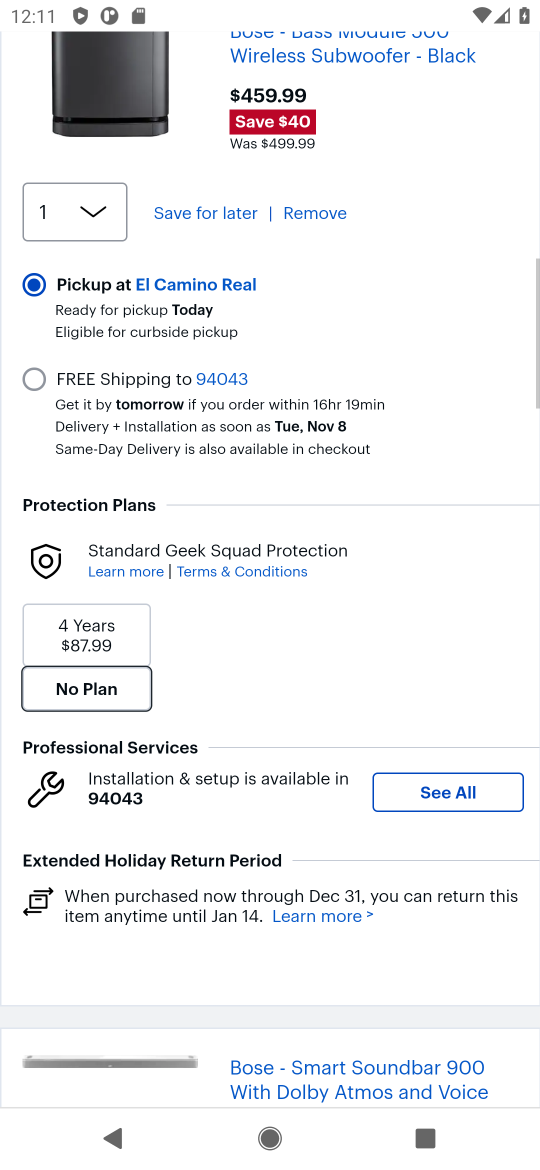
Step 47: drag from (393, 781) to (433, 370)
Your task to perform on an android device: Add logitech g933 to the cart on bestbuy.com, then select checkout. Image 48: 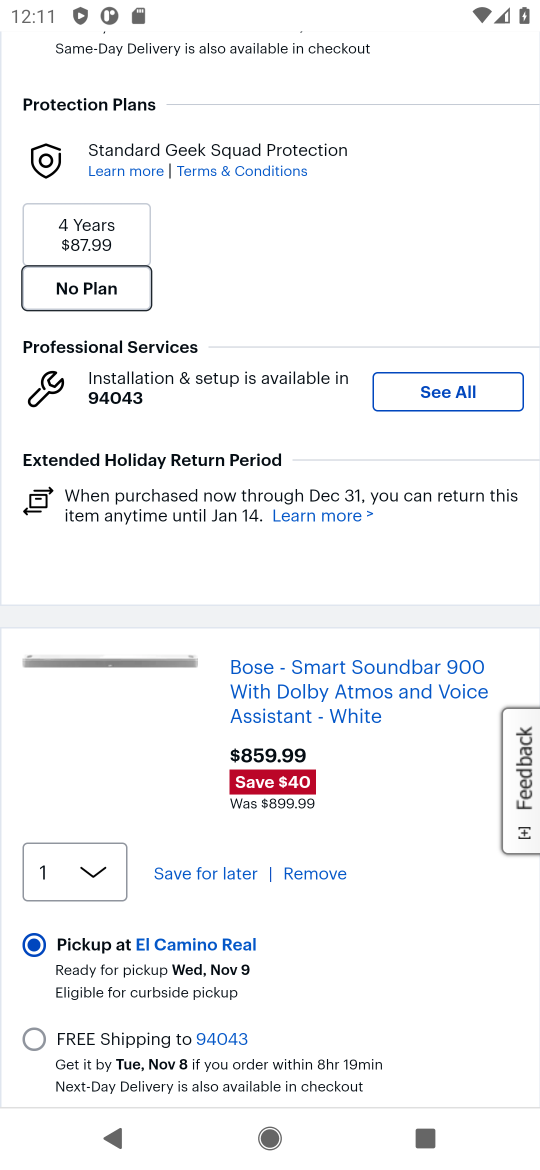
Step 48: drag from (345, 913) to (368, 497)
Your task to perform on an android device: Add logitech g933 to the cart on bestbuy.com, then select checkout. Image 49: 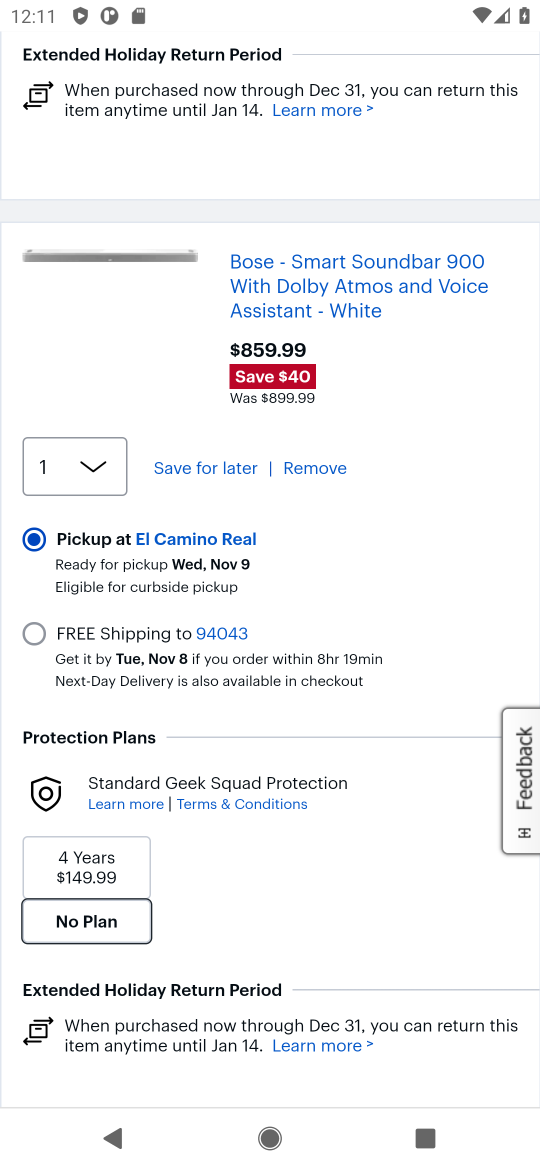
Step 49: drag from (343, 962) to (387, 420)
Your task to perform on an android device: Add logitech g933 to the cart on bestbuy.com, then select checkout. Image 50: 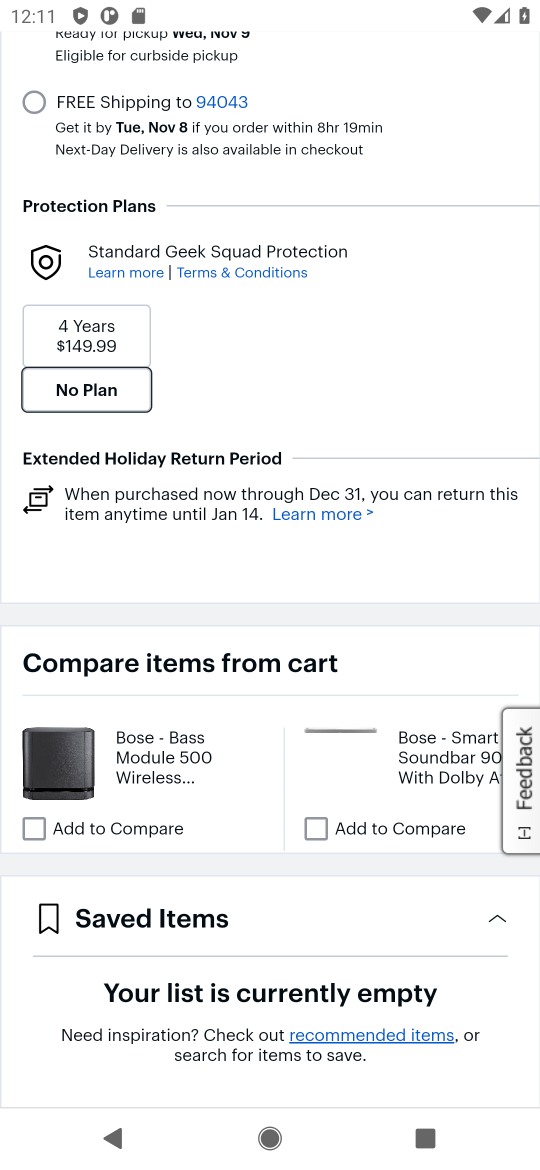
Step 50: drag from (299, 854) to (301, 393)
Your task to perform on an android device: Add logitech g933 to the cart on bestbuy.com, then select checkout. Image 51: 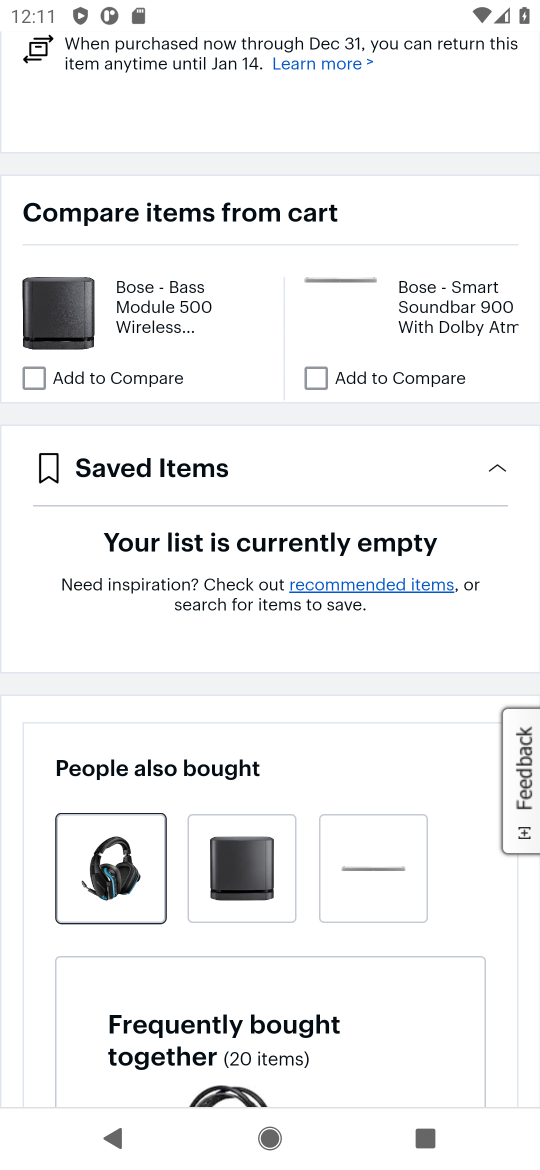
Step 51: drag from (264, 894) to (289, 290)
Your task to perform on an android device: Add logitech g933 to the cart on bestbuy.com, then select checkout. Image 52: 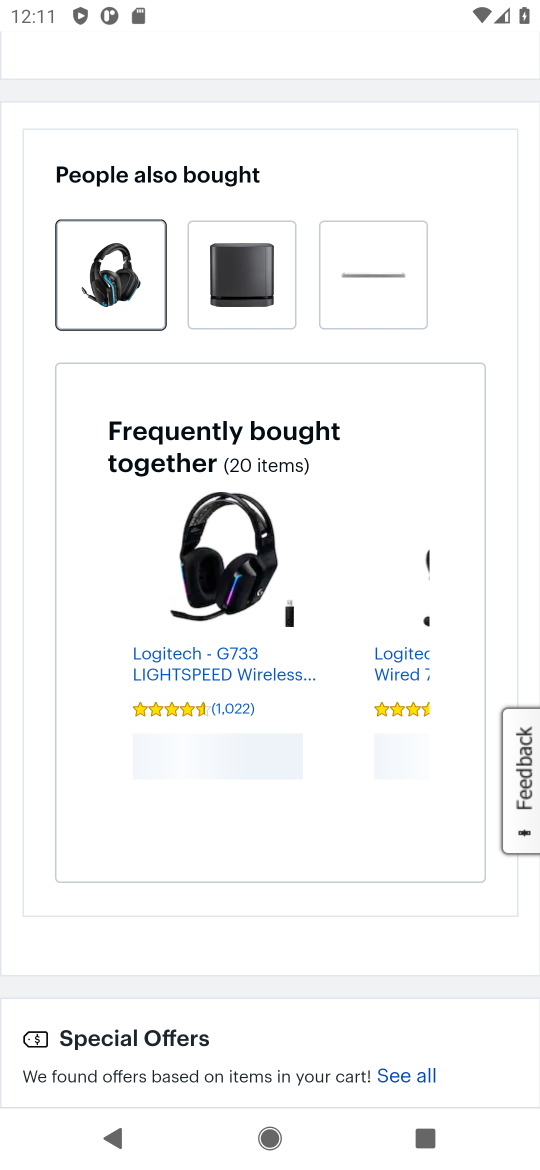
Step 52: drag from (204, 949) to (223, 277)
Your task to perform on an android device: Add logitech g933 to the cart on bestbuy.com, then select checkout. Image 53: 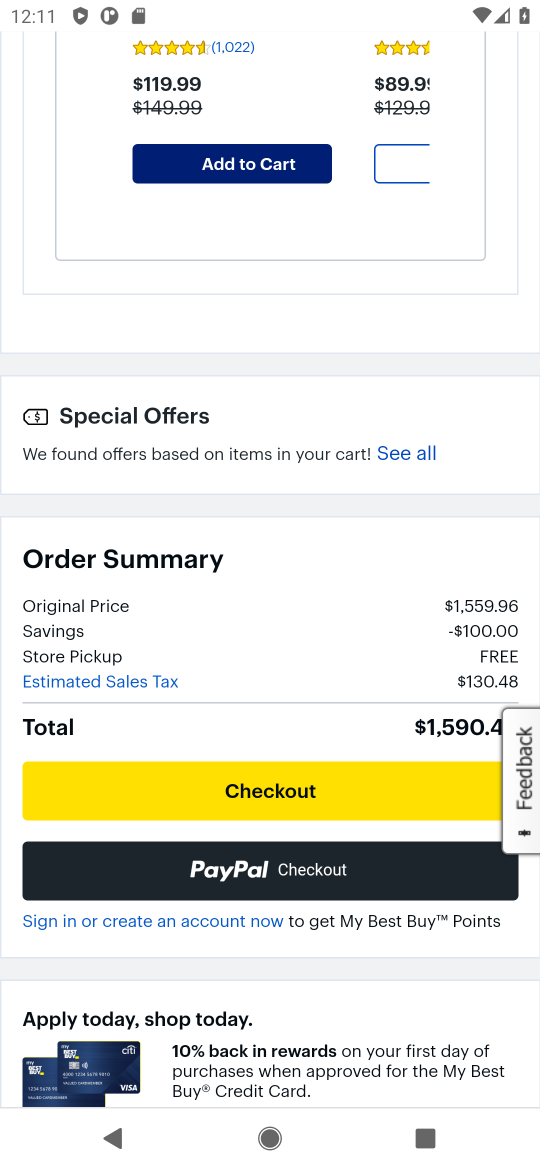
Step 53: click (250, 802)
Your task to perform on an android device: Add logitech g933 to the cart on bestbuy.com, then select checkout. Image 54: 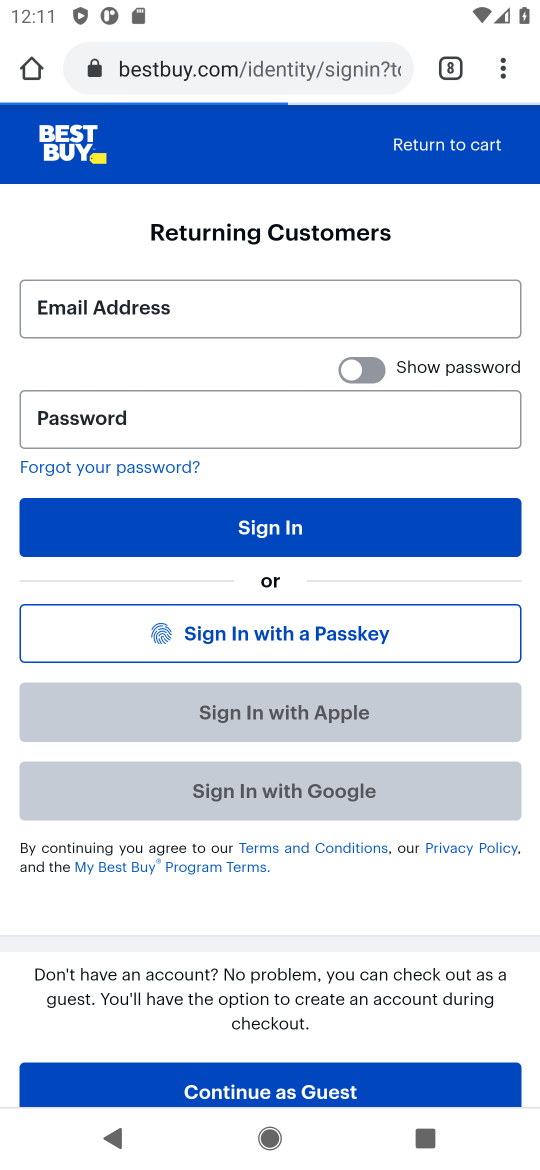
Step 54: task complete